Your task to perform on an android device: What are the best selling refrigerators at Home Depot? Image 0: 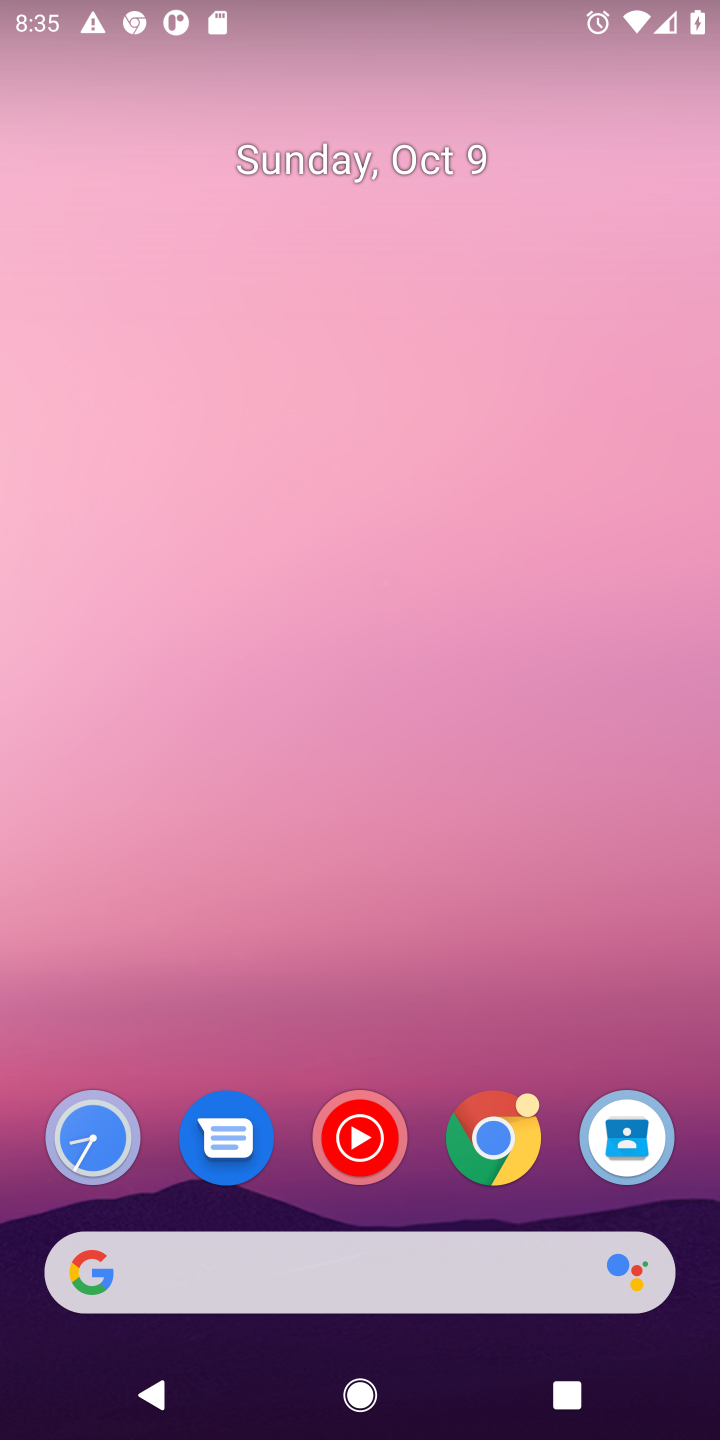
Step 0: drag from (312, 958) to (297, 747)
Your task to perform on an android device: What are the best selling refrigerators at Home Depot? Image 1: 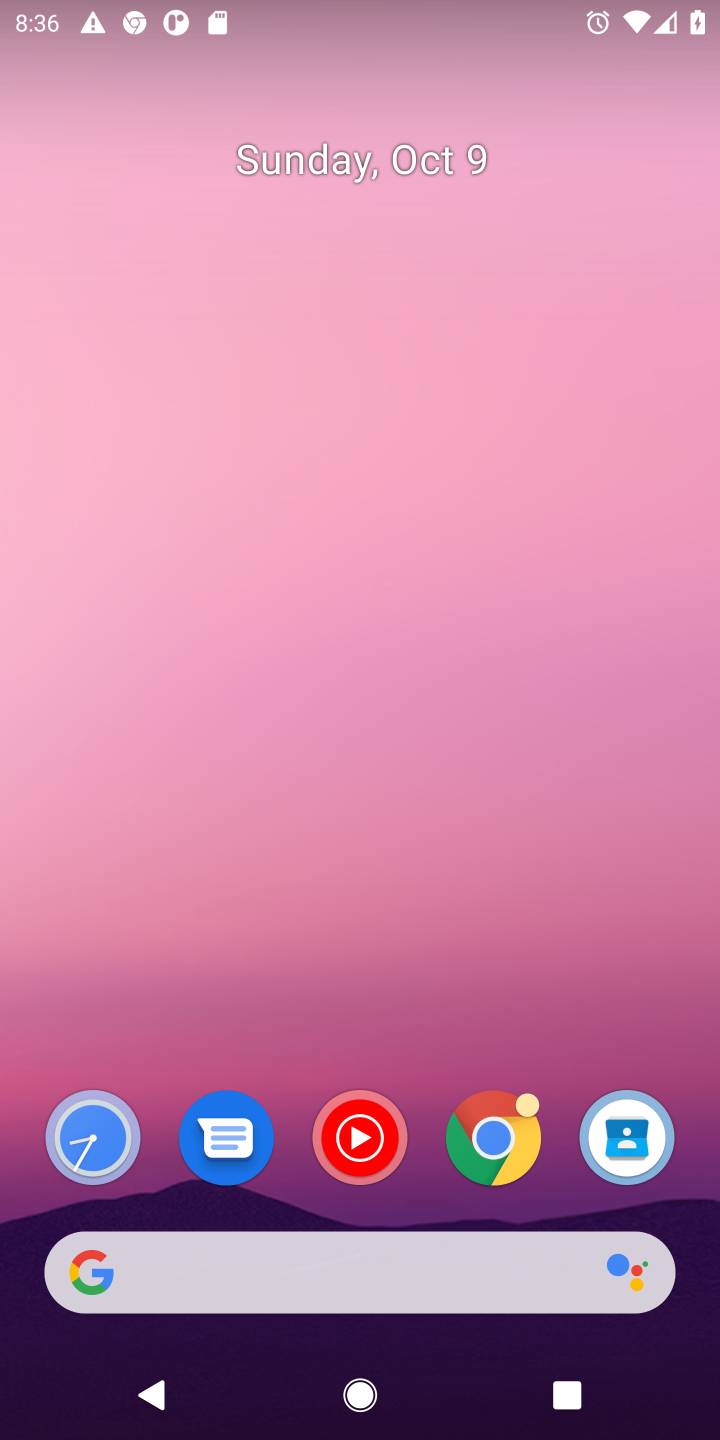
Step 1: drag from (321, 1132) to (321, 265)
Your task to perform on an android device: What are the best selling refrigerators at Home Depot? Image 2: 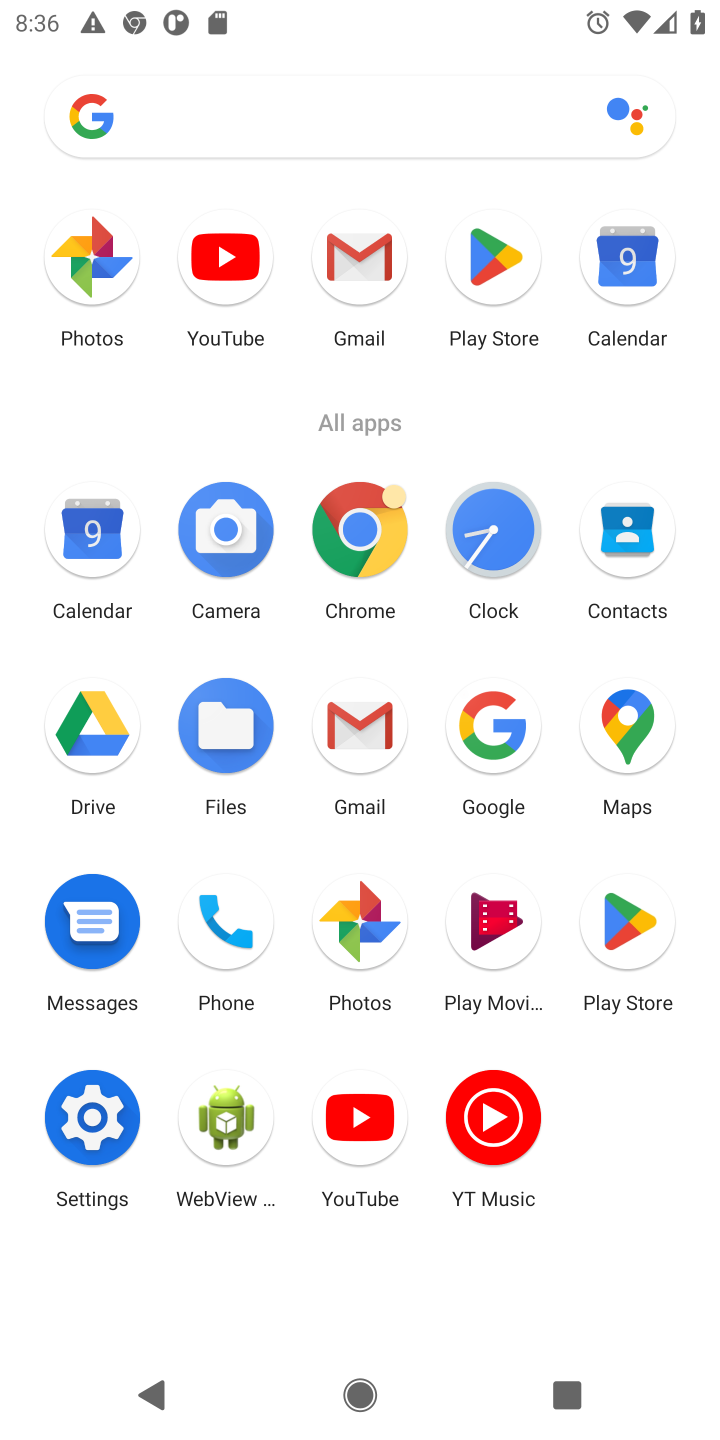
Step 2: click (486, 712)
Your task to perform on an android device: What are the best selling refrigerators at Home Depot? Image 3: 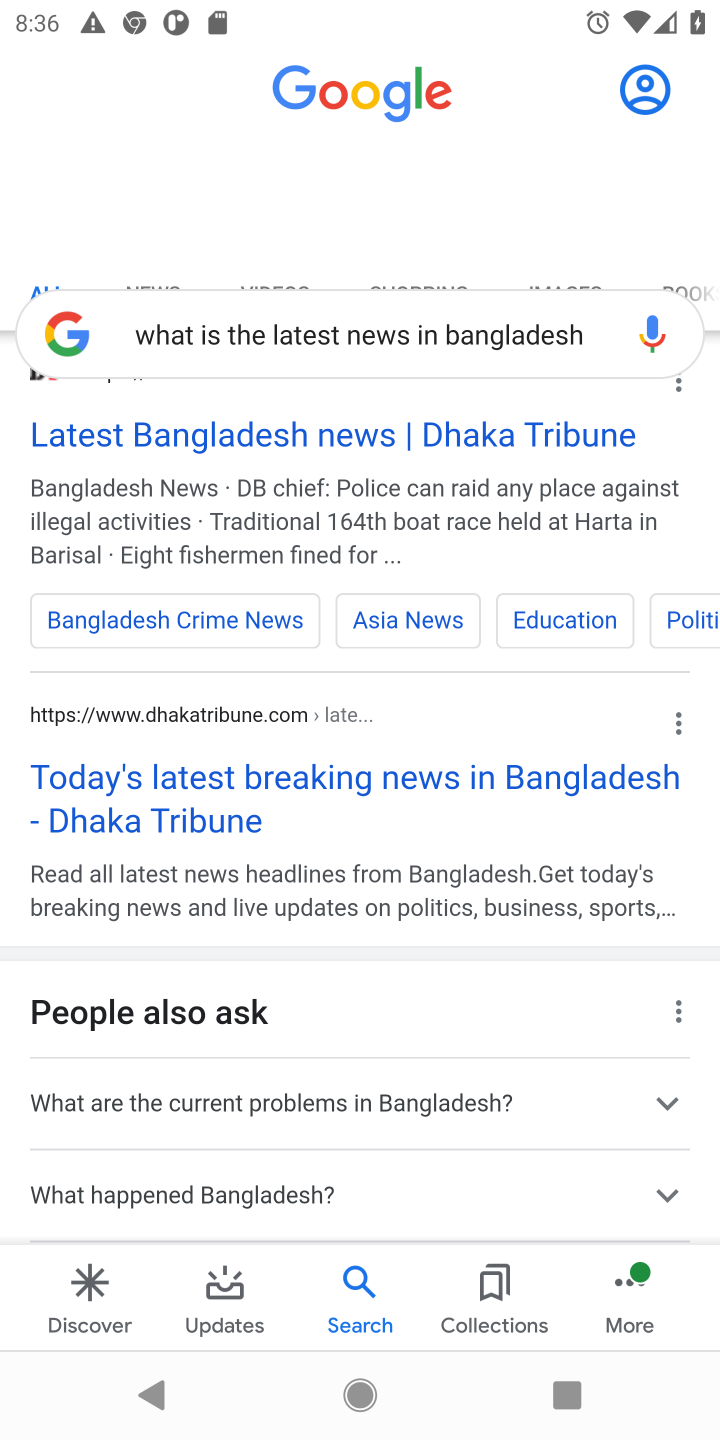
Step 3: click (352, 305)
Your task to perform on an android device: What are the best selling refrigerators at Home Depot? Image 4: 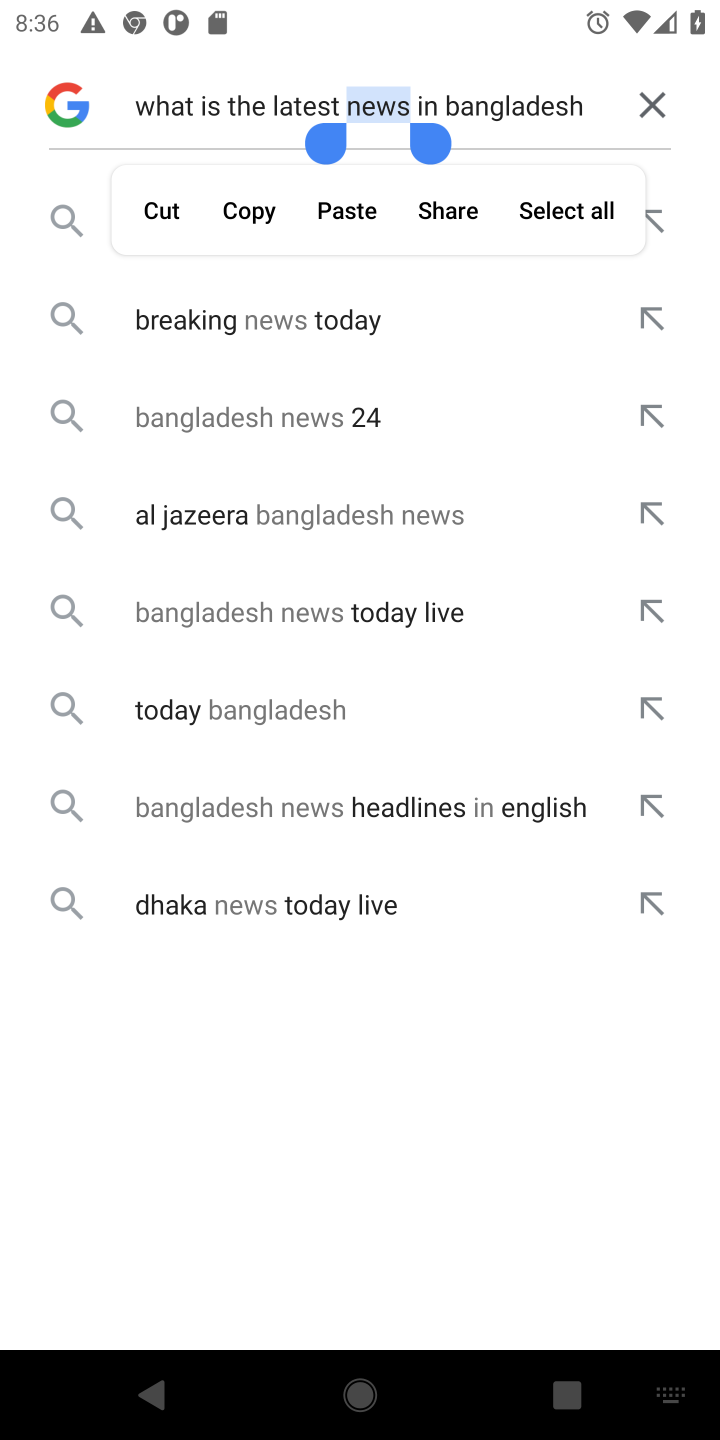
Step 4: click (651, 107)
Your task to perform on an android device: What are the best selling refrigerators at Home Depot? Image 5: 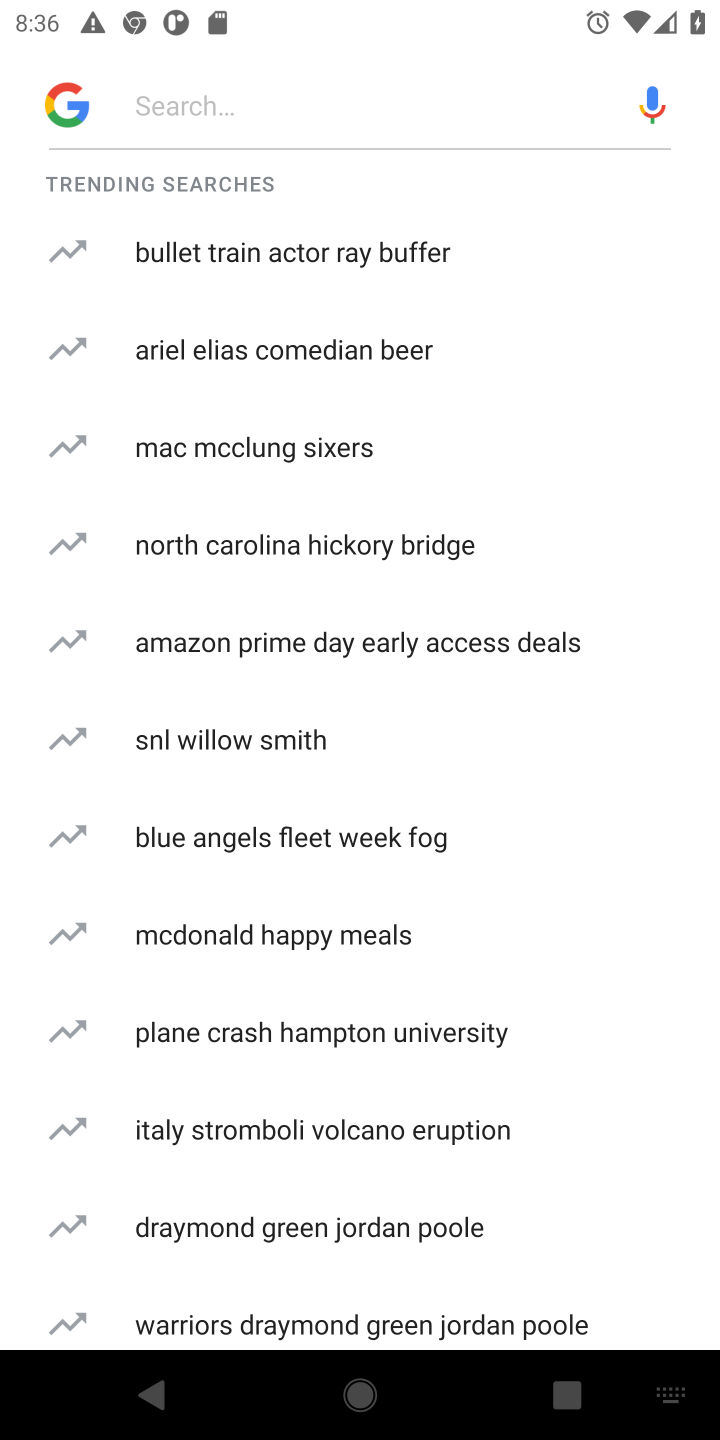
Step 5: click (305, 59)
Your task to perform on an android device: What are the best selling refrigerators at Home Depot? Image 6: 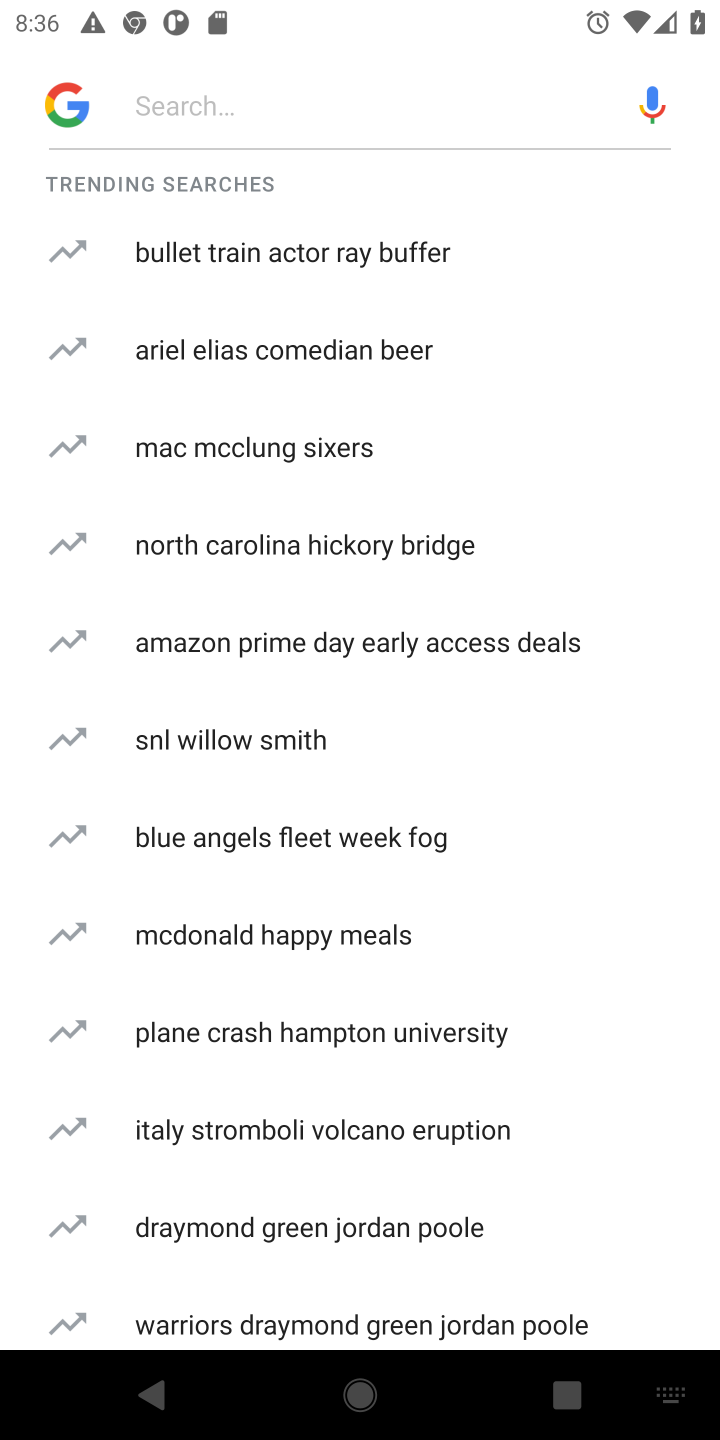
Step 6: type "What are the best selling refrigerators at Home Depot? "
Your task to perform on an android device: What are the best selling refrigerators at Home Depot? Image 7: 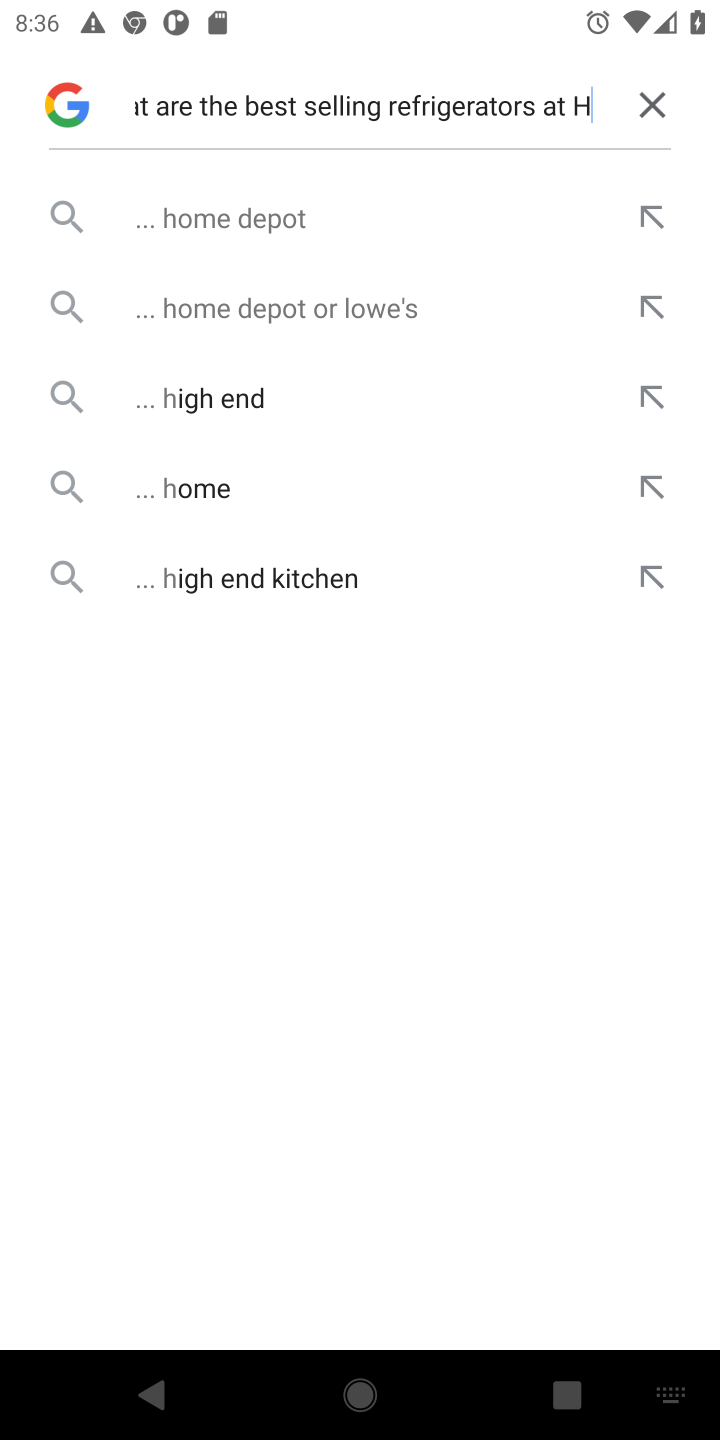
Step 7: click (324, 220)
Your task to perform on an android device: What are the best selling refrigerators at Home Depot? Image 8: 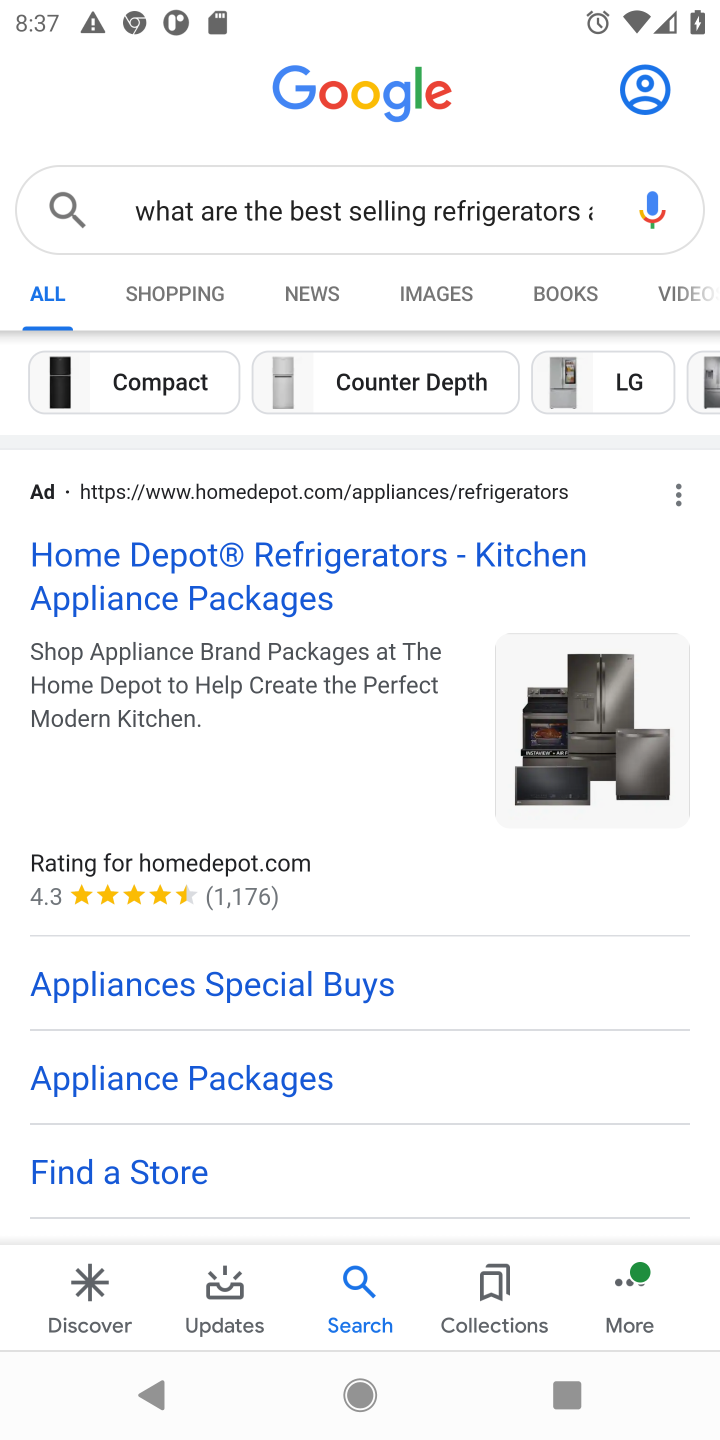
Step 8: click (177, 580)
Your task to perform on an android device: What are the best selling refrigerators at Home Depot? Image 9: 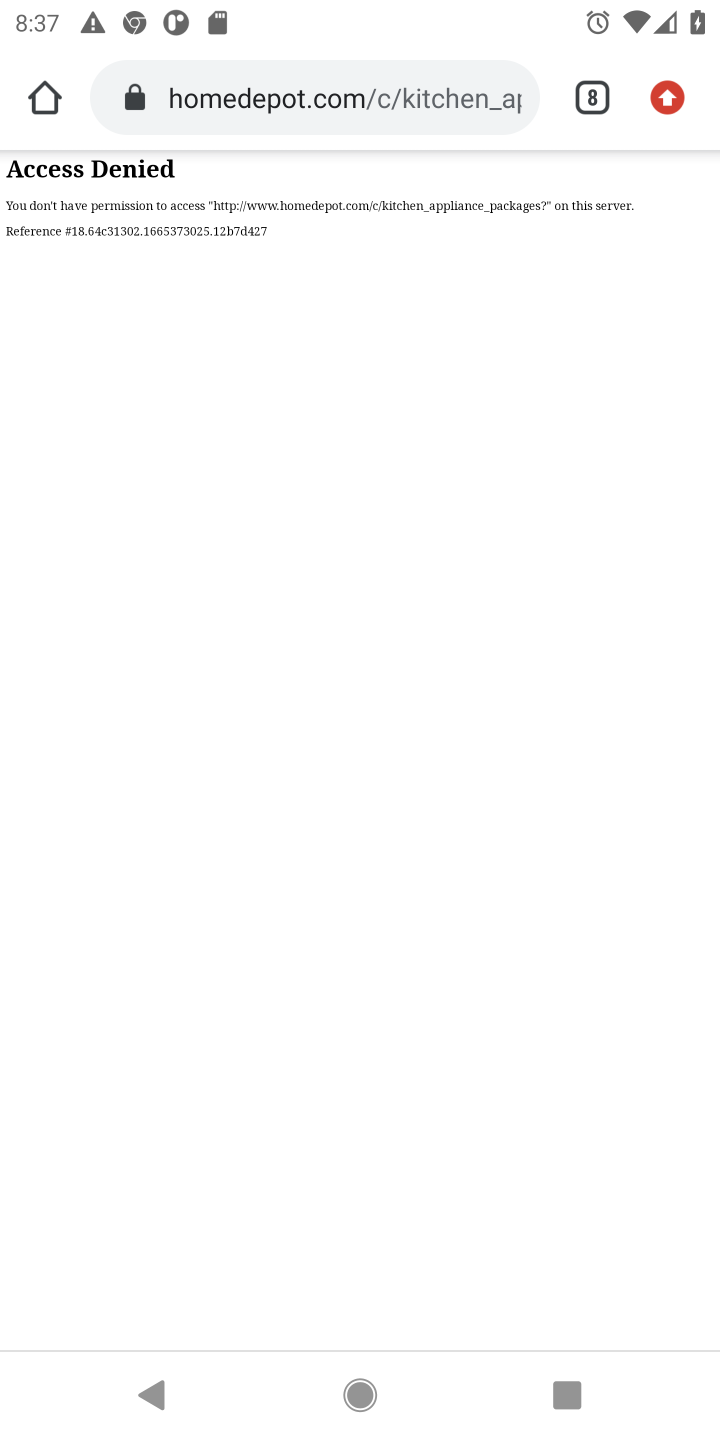
Step 9: press back button
Your task to perform on an android device: What are the best selling refrigerators at Home Depot? Image 10: 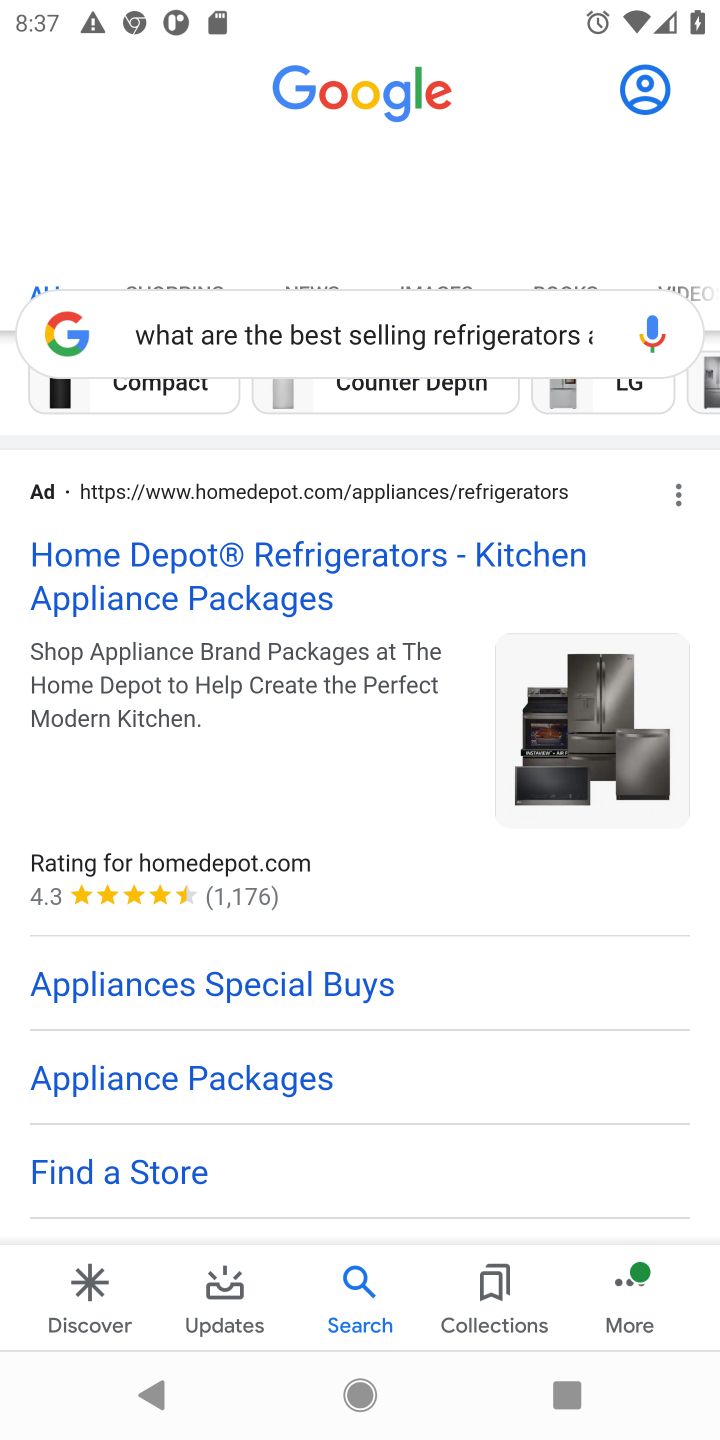
Step 10: click (308, 1190)
Your task to perform on an android device: What are the best selling refrigerators at Home Depot? Image 11: 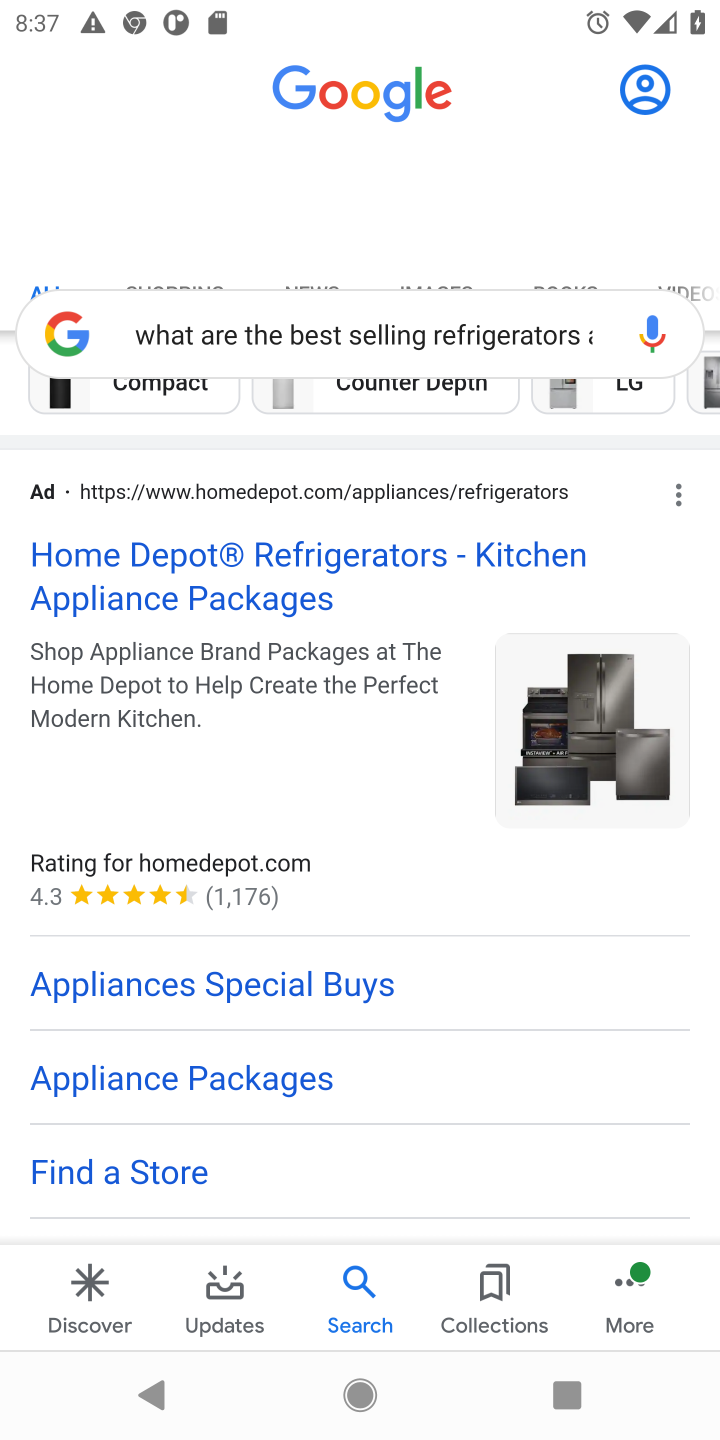
Step 11: drag from (333, 1044) to (441, 549)
Your task to perform on an android device: What are the best selling refrigerators at Home Depot? Image 12: 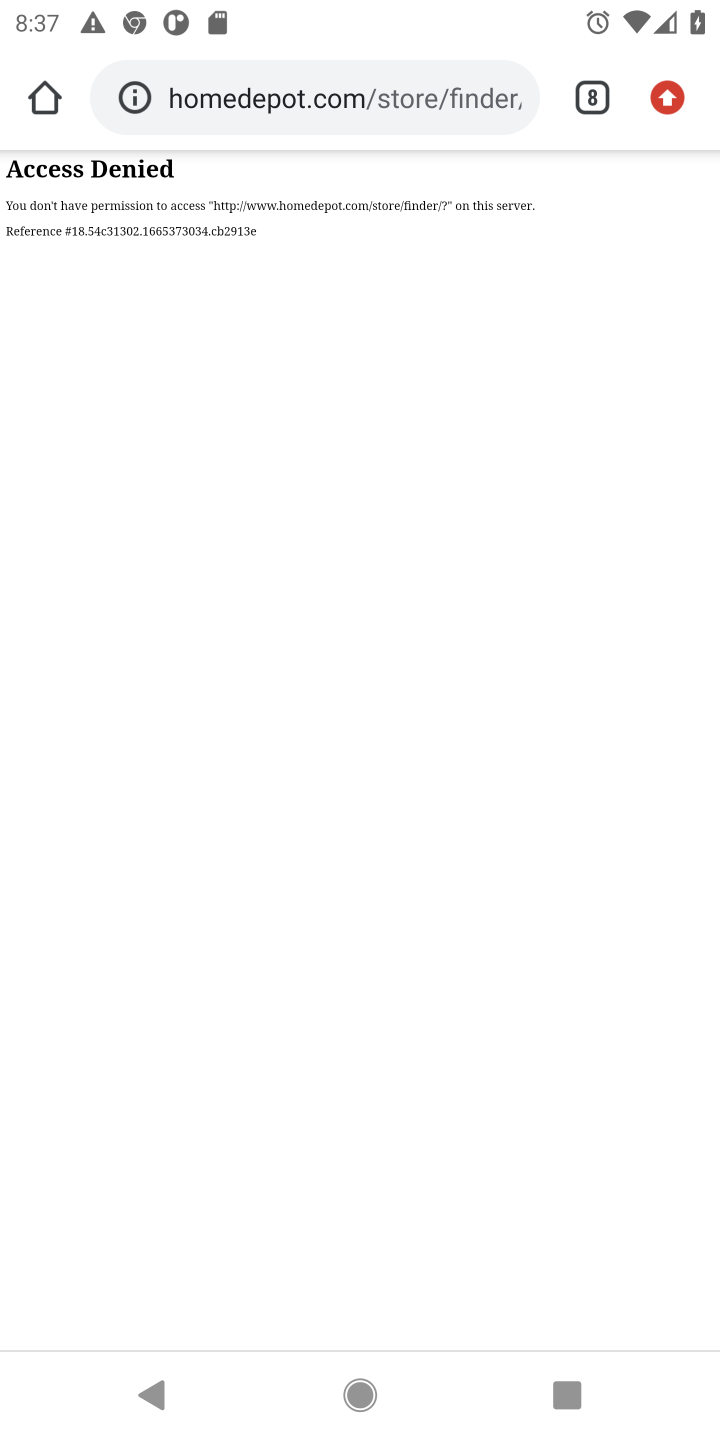
Step 12: drag from (374, 887) to (432, 429)
Your task to perform on an android device: What are the best selling refrigerators at Home Depot? Image 13: 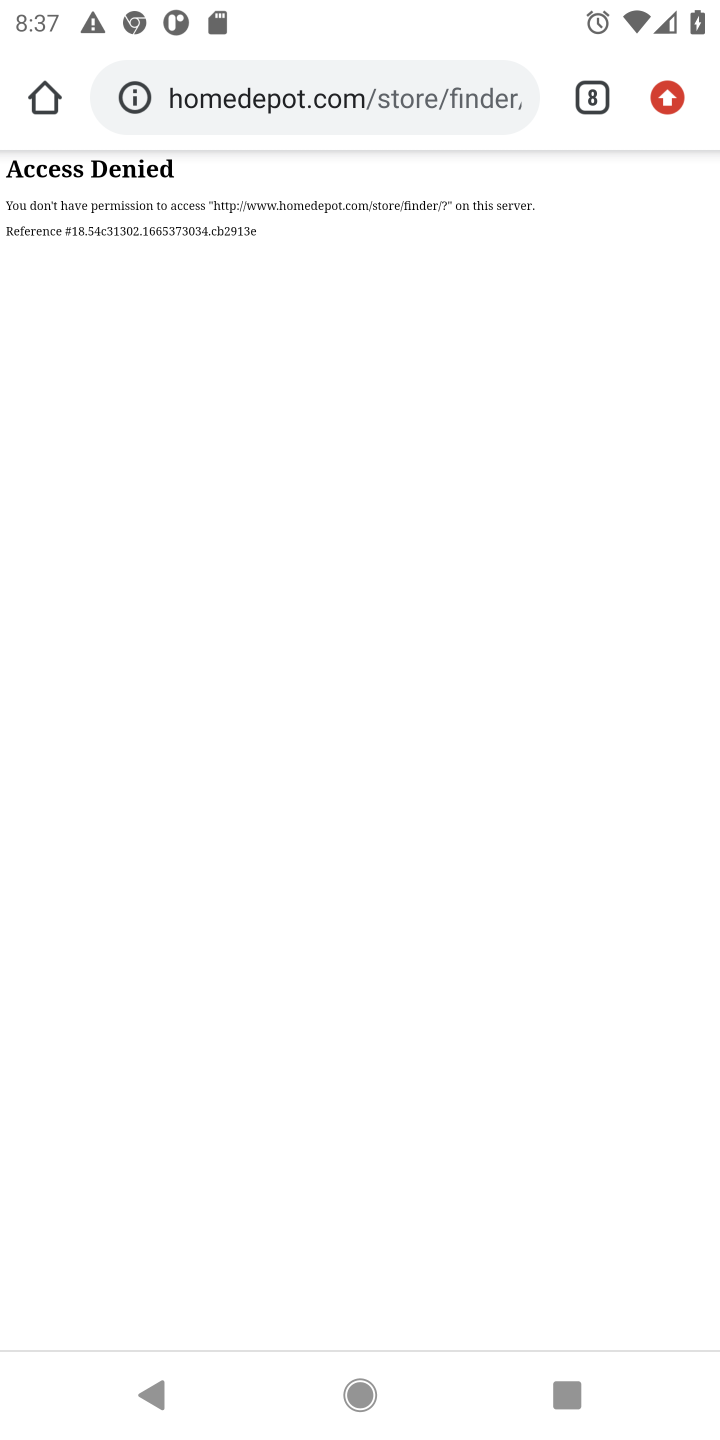
Step 13: press back button
Your task to perform on an android device: What are the best selling refrigerators at Home Depot? Image 14: 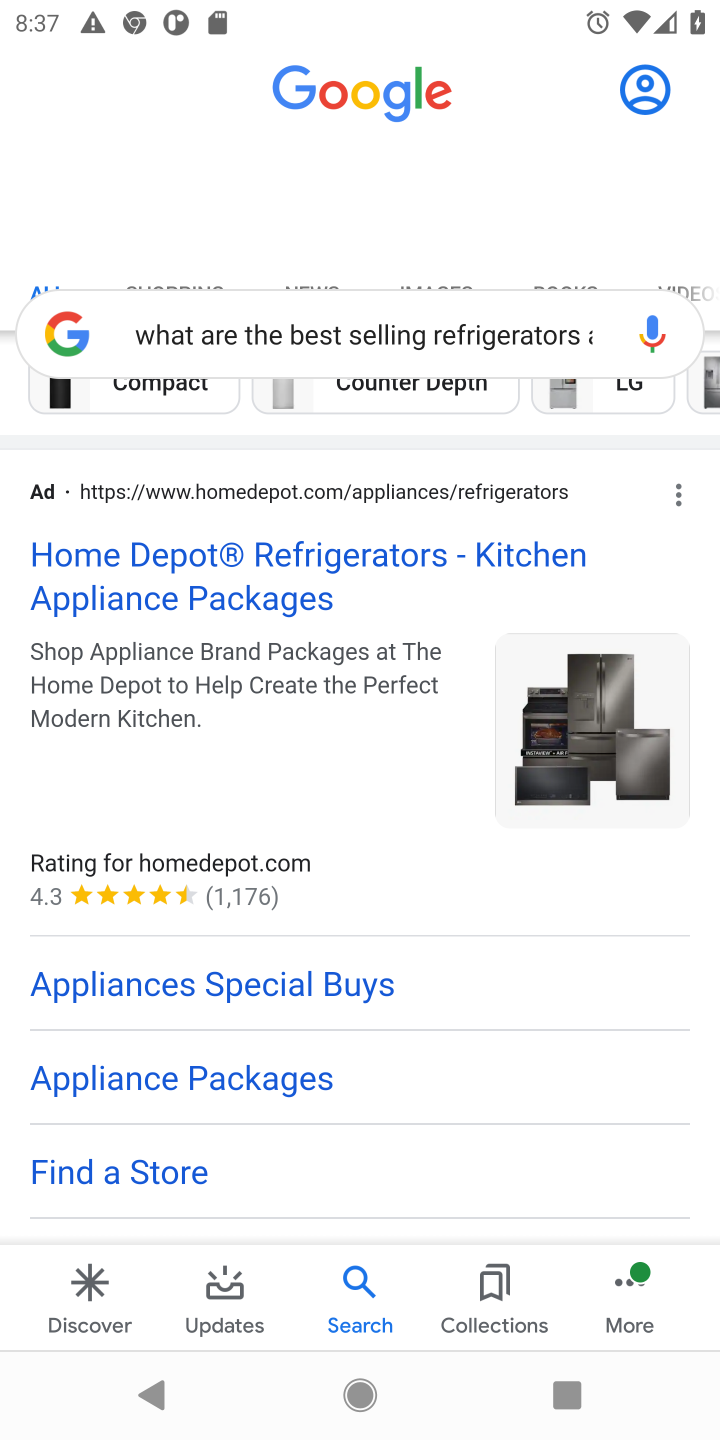
Step 14: drag from (423, 1114) to (458, 734)
Your task to perform on an android device: What are the best selling refrigerators at Home Depot? Image 15: 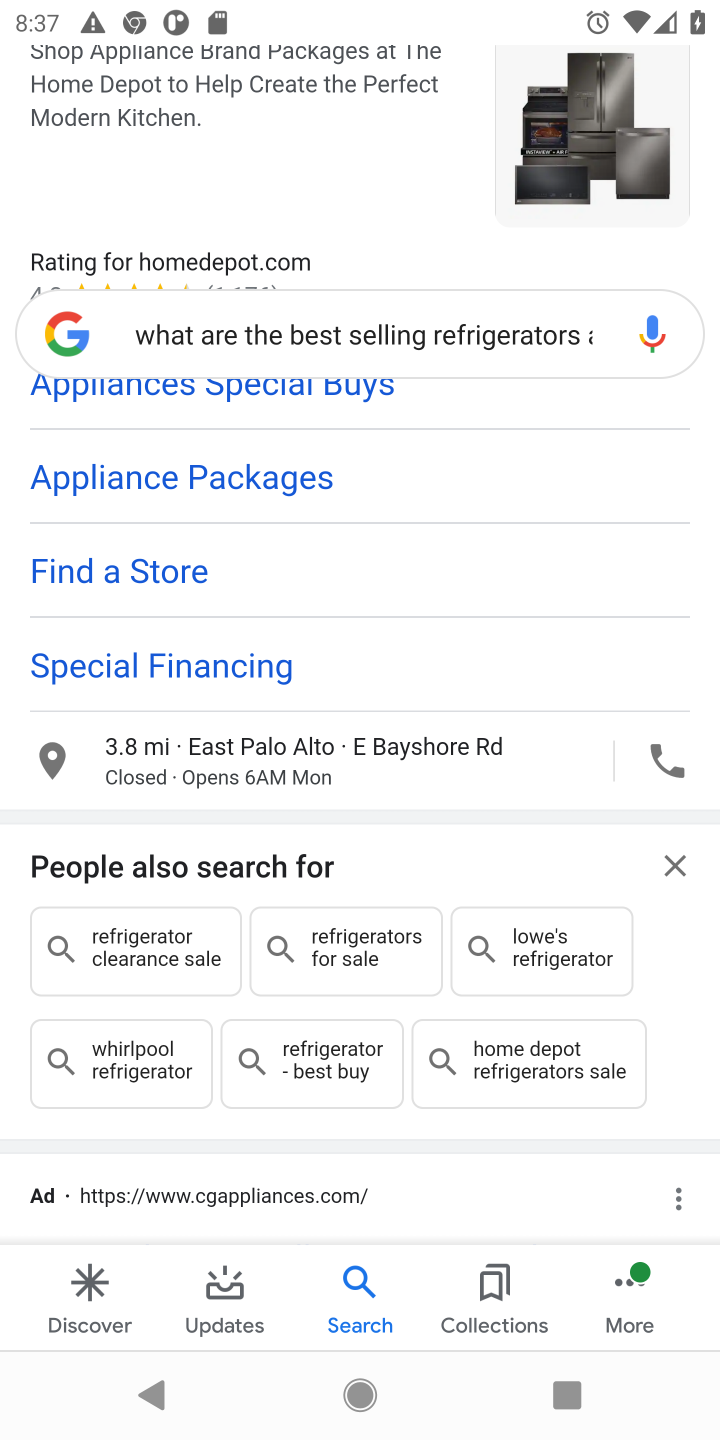
Step 15: drag from (435, 854) to (445, 787)
Your task to perform on an android device: What are the best selling refrigerators at Home Depot? Image 16: 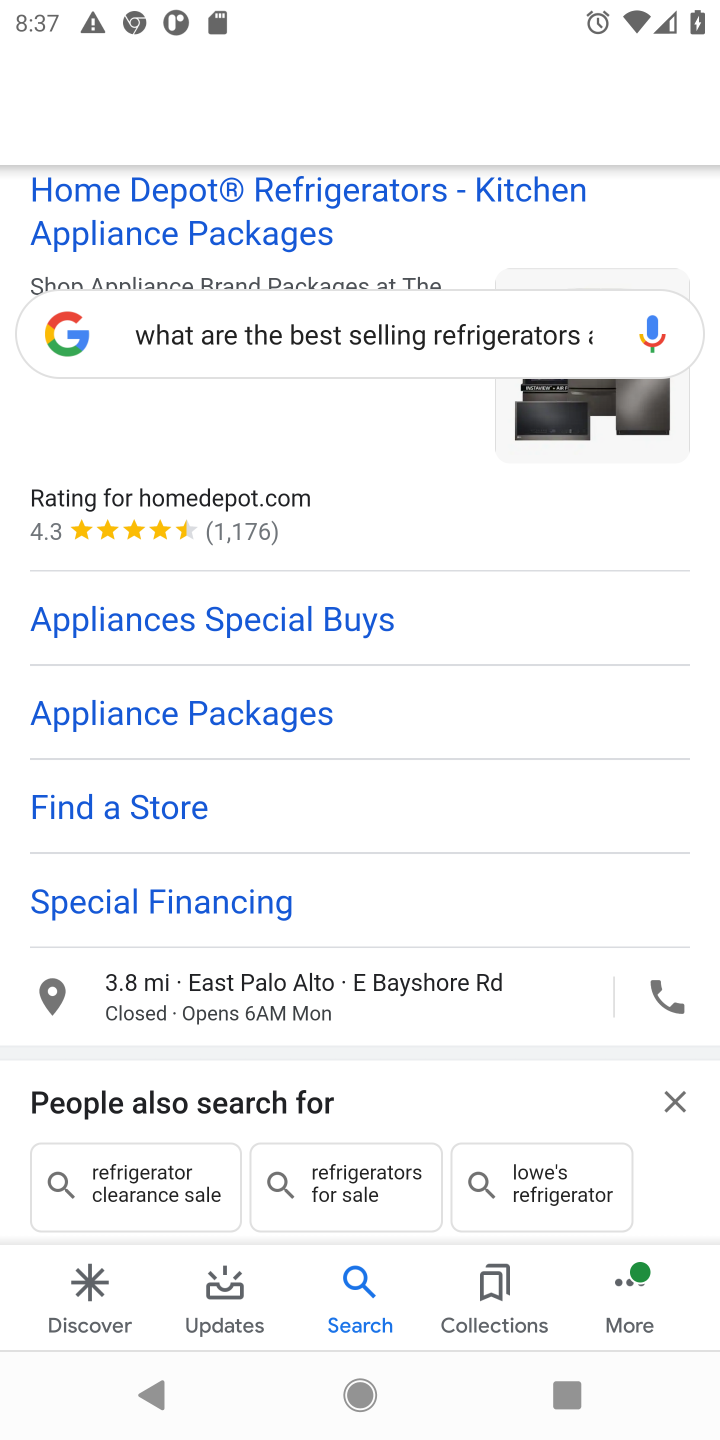
Step 16: drag from (393, 947) to (408, 754)
Your task to perform on an android device: What are the best selling refrigerators at Home Depot? Image 17: 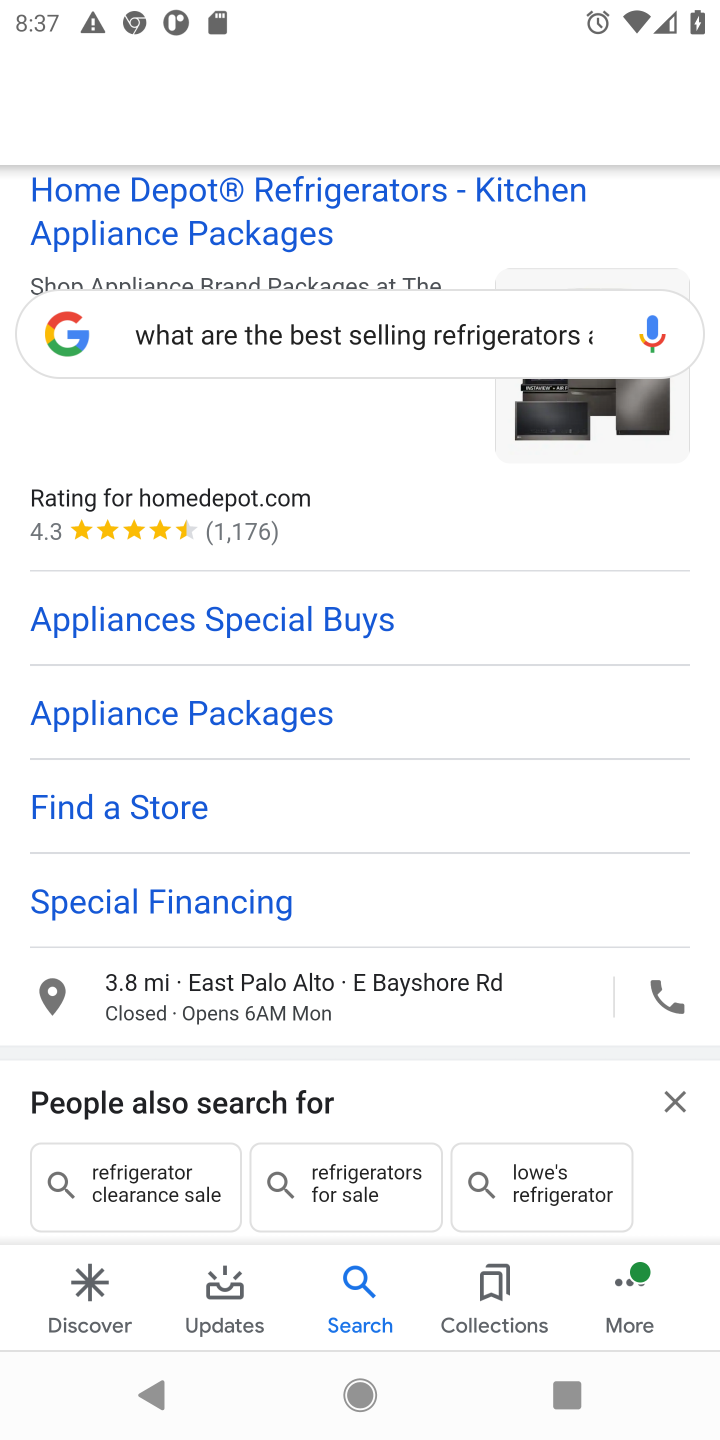
Step 17: drag from (269, 1051) to (326, 608)
Your task to perform on an android device: What are the best selling refrigerators at Home Depot? Image 18: 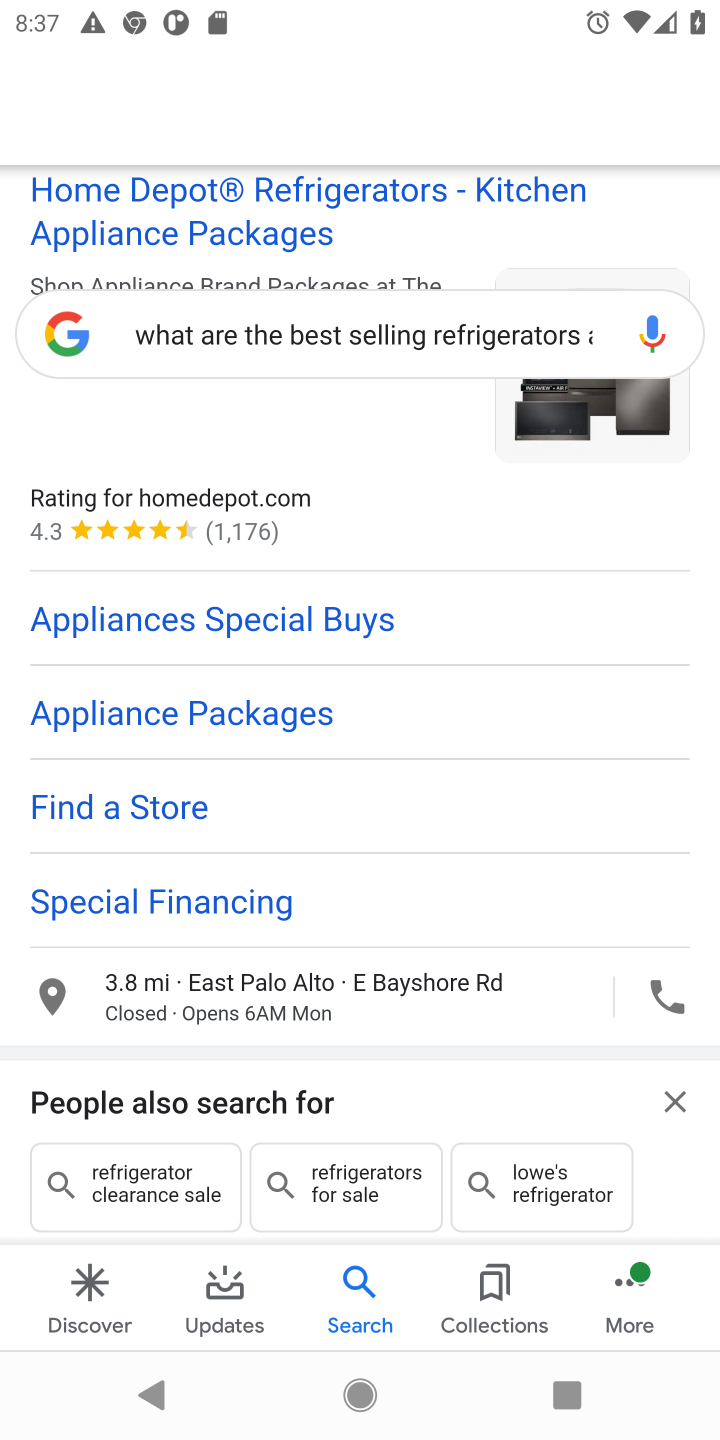
Step 18: drag from (200, 1065) to (300, 631)
Your task to perform on an android device: What are the best selling refrigerators at Home Depot? Image 19: 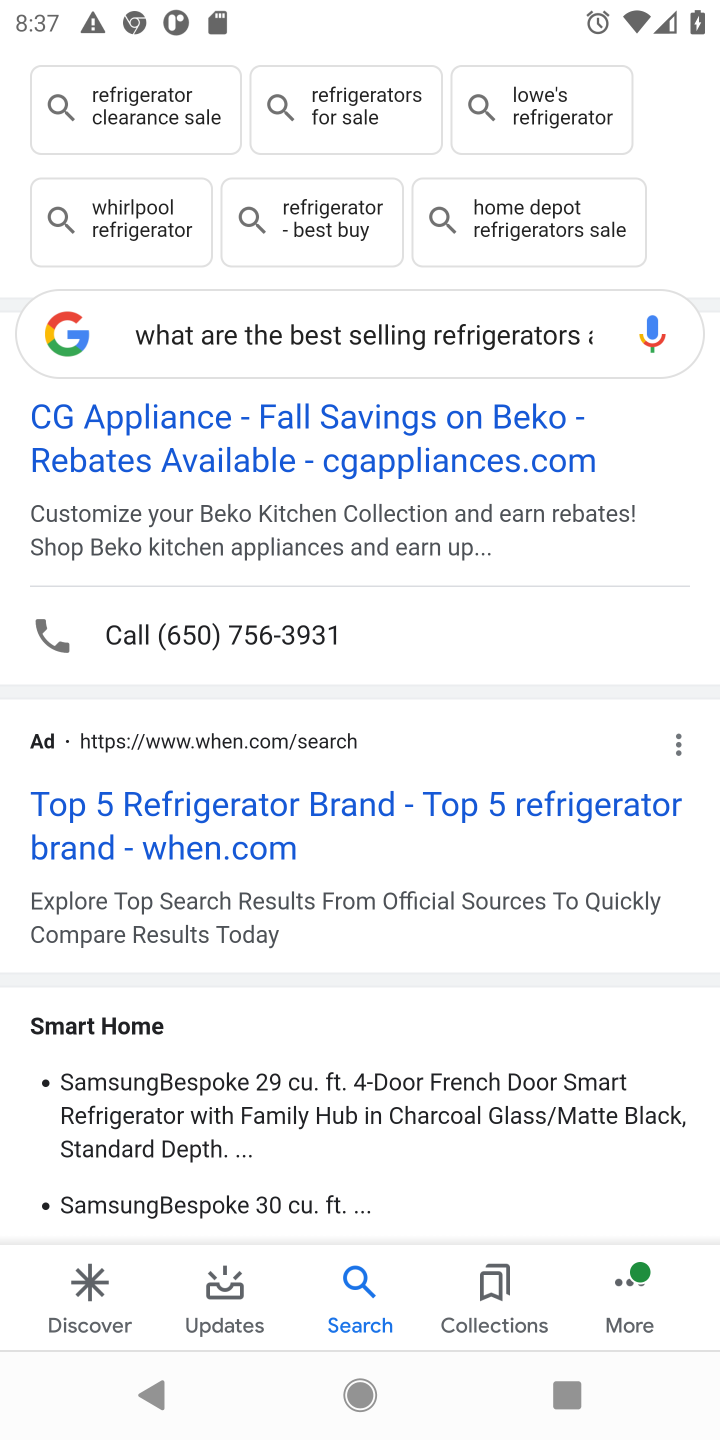
Step 19: drag from (261, 825) to (271, 658)
Your task to perform on an android device: What are the best selling refrigerators at Home Depot? Image 20: 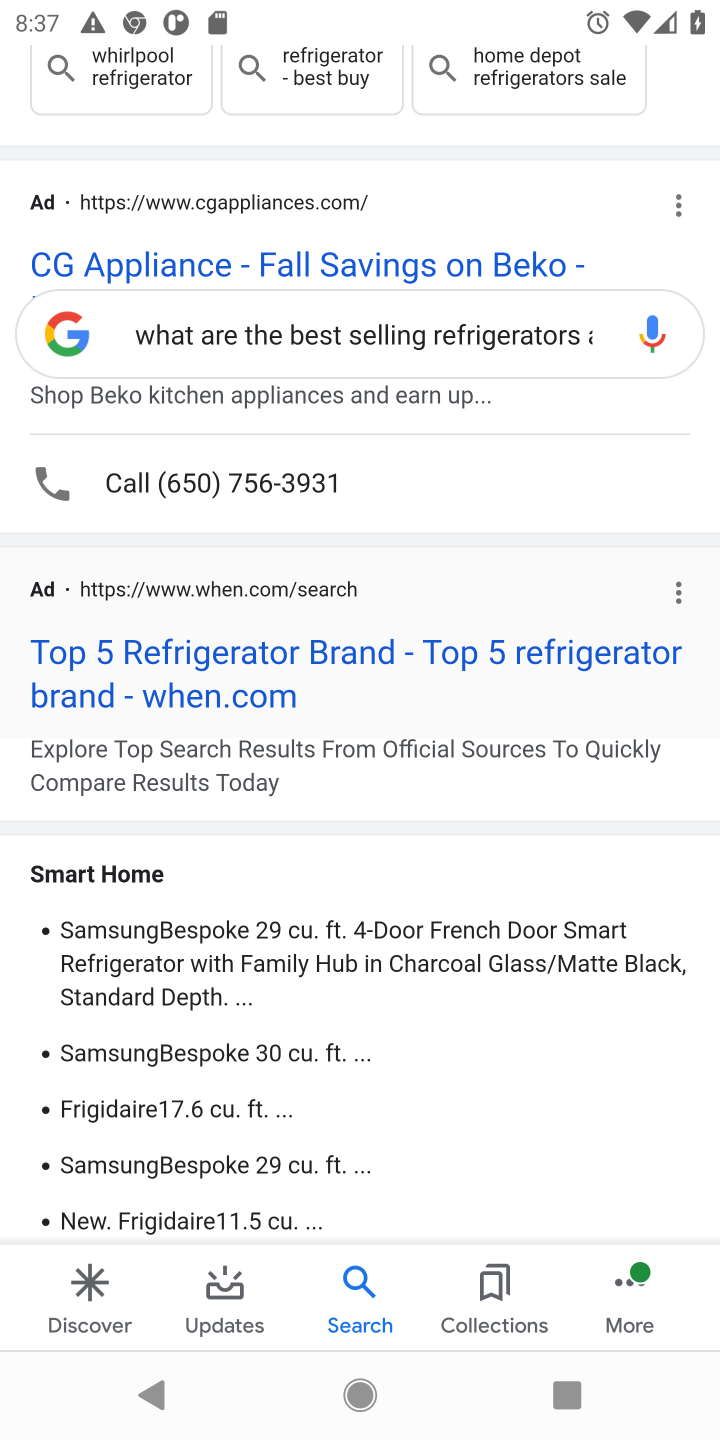
Step 20: click (231, 809)
Your task to perform on an android device: What are the best selling refrigerators at Home Depot? Image 21: 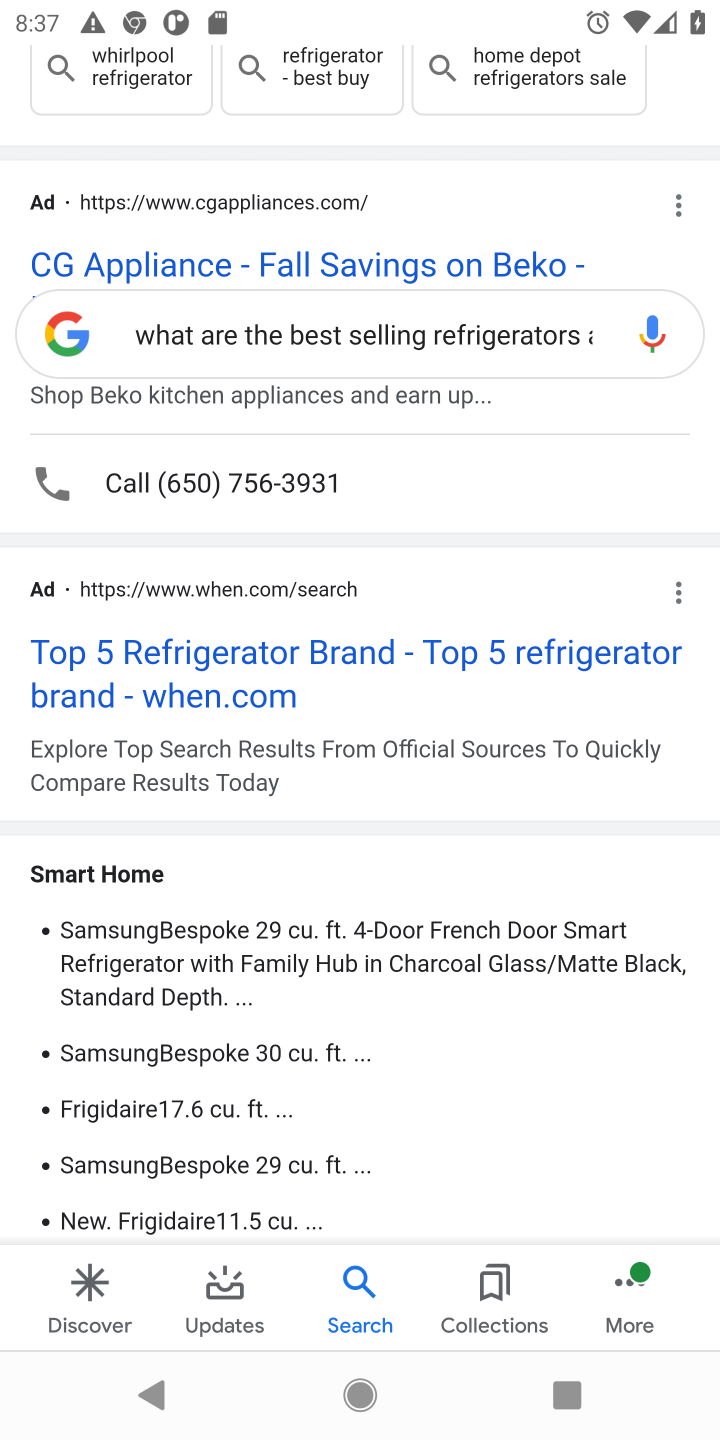
Step 21: click (228, 706)
Your task to perform on an android device: What are the best selling refrigerators at Home Depot? Image 22: 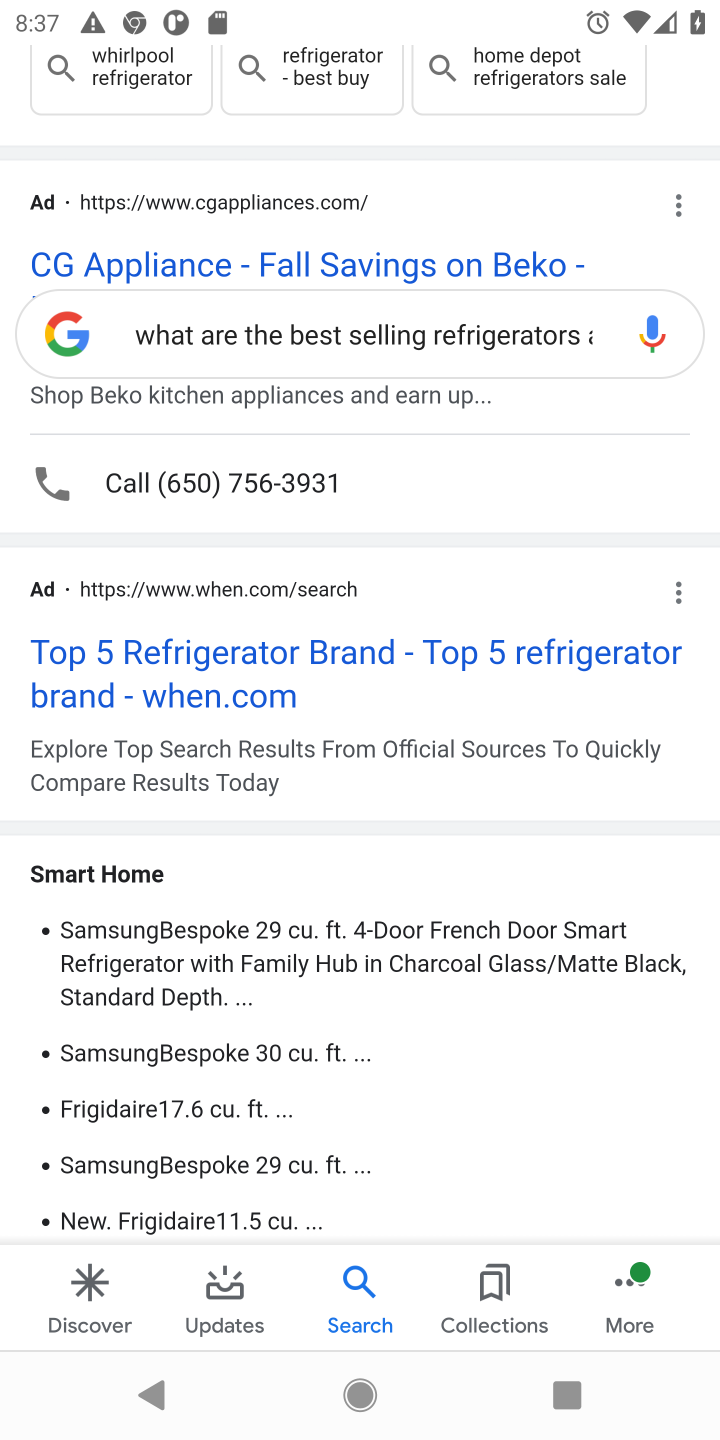
Step 22: click (199, 670)
Your task to perform on an android device: What are the best selling refrigerators at Home Depot? Image 23: 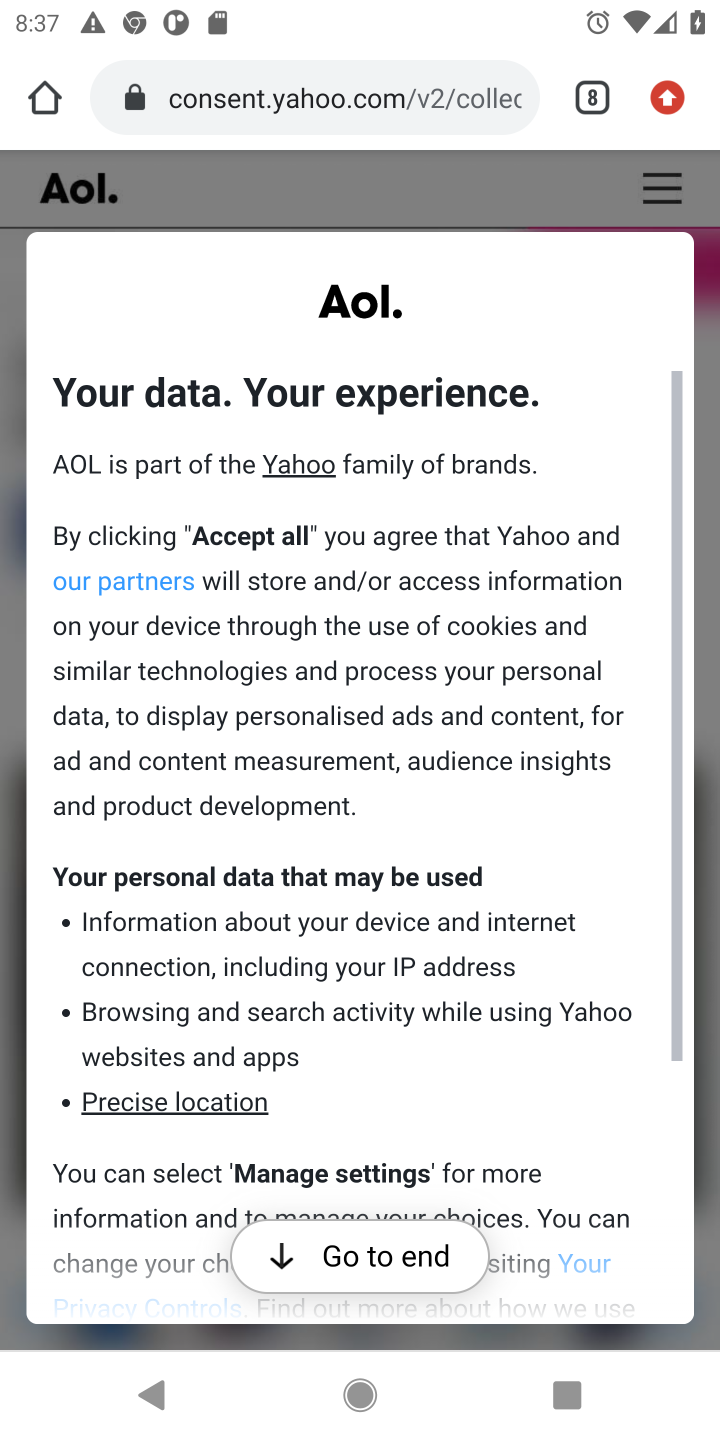
Step 23: click (395, 1238)
Your task to perform on an android device: What are the best selling refrigerators at Home Depot? Image 24: 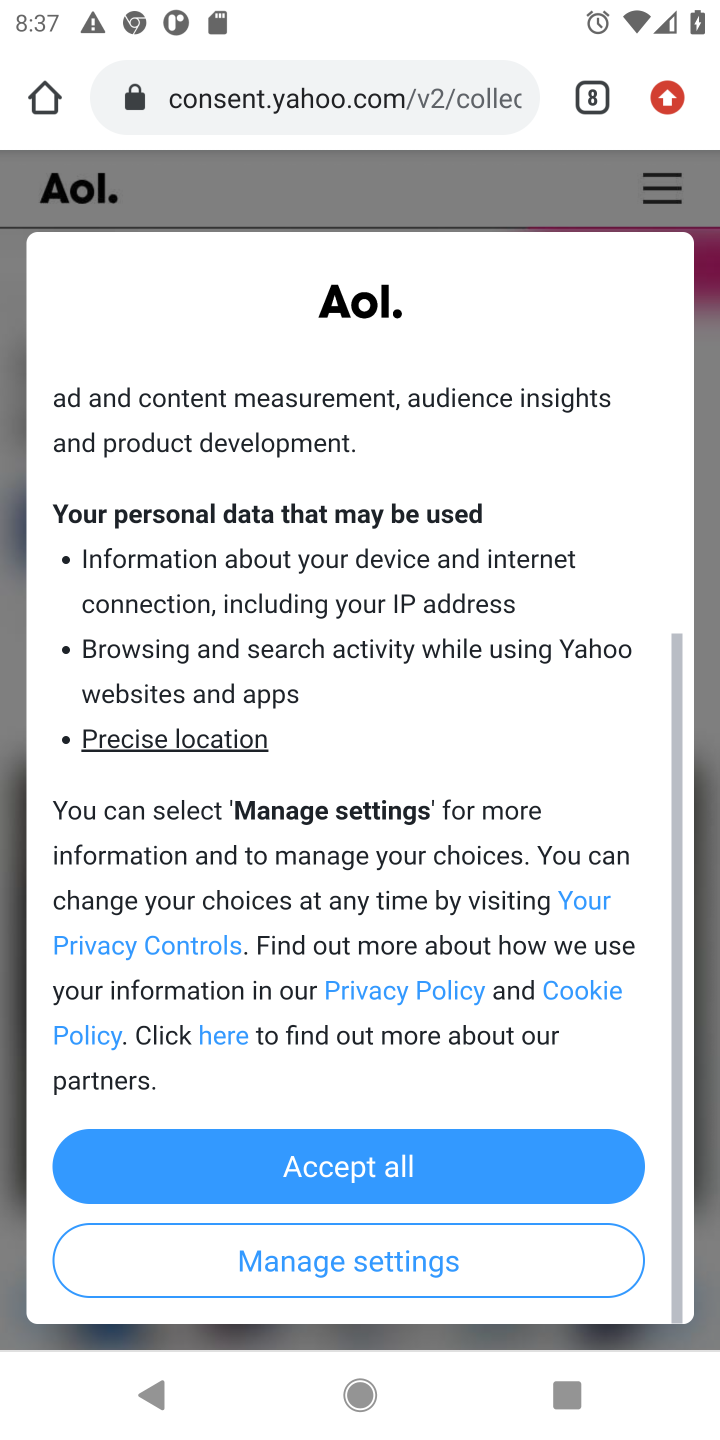
Step 24: click (493, 1167)
Your task to perform on an android device: What are the best selling refrigerators at Home Depot? Image 25: 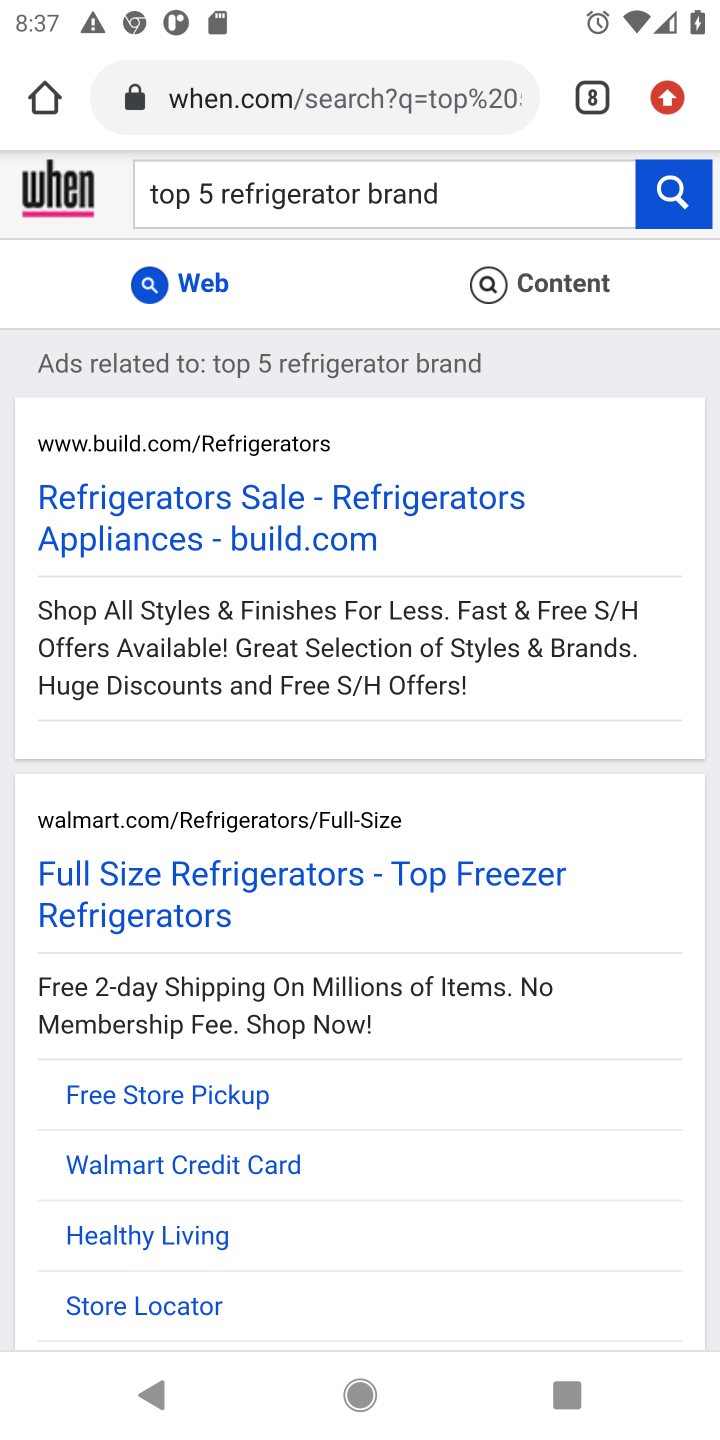
Step 25: press back button
Your task to perform on an android device: What are the best selling refrigerators at Home Depot? Image 26: 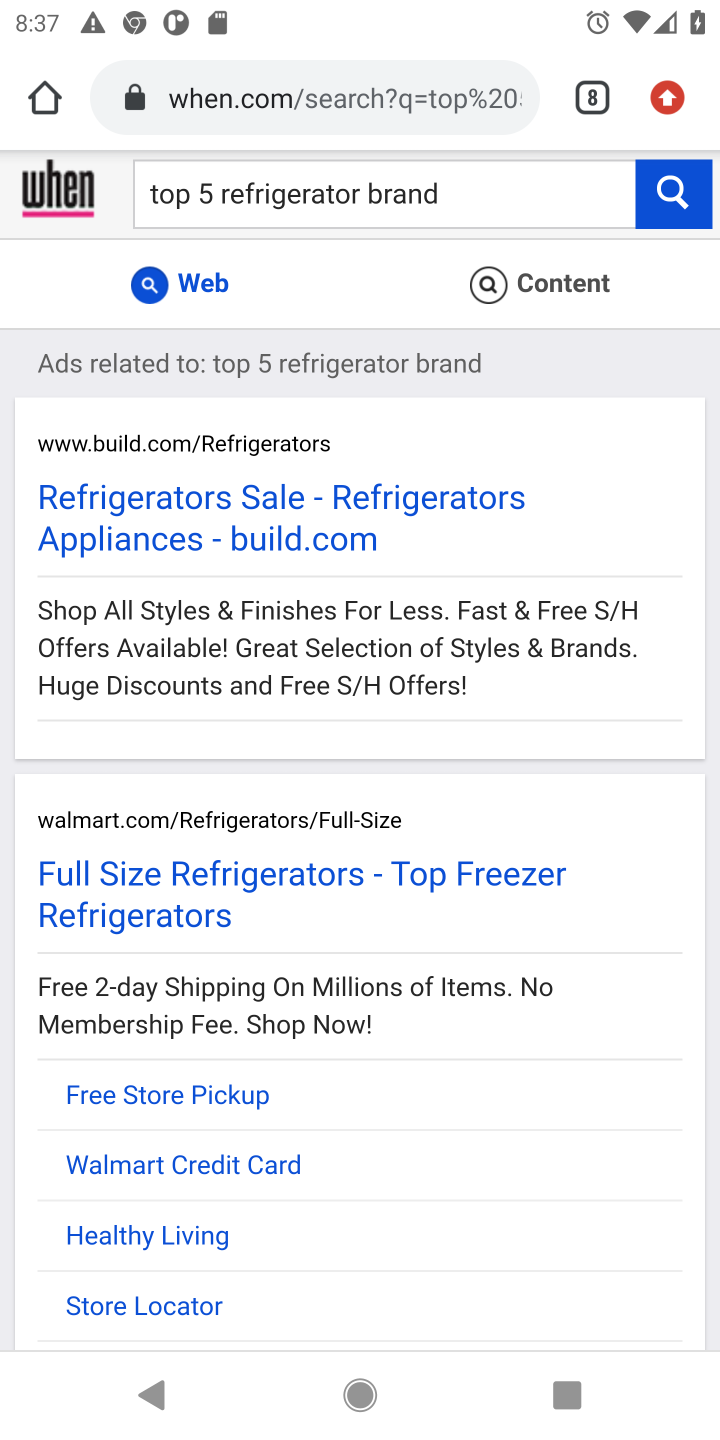
Step 26: press back button
Your task to perform on an android device: What are the best selling refrigerators at Home Depot? Image 27: 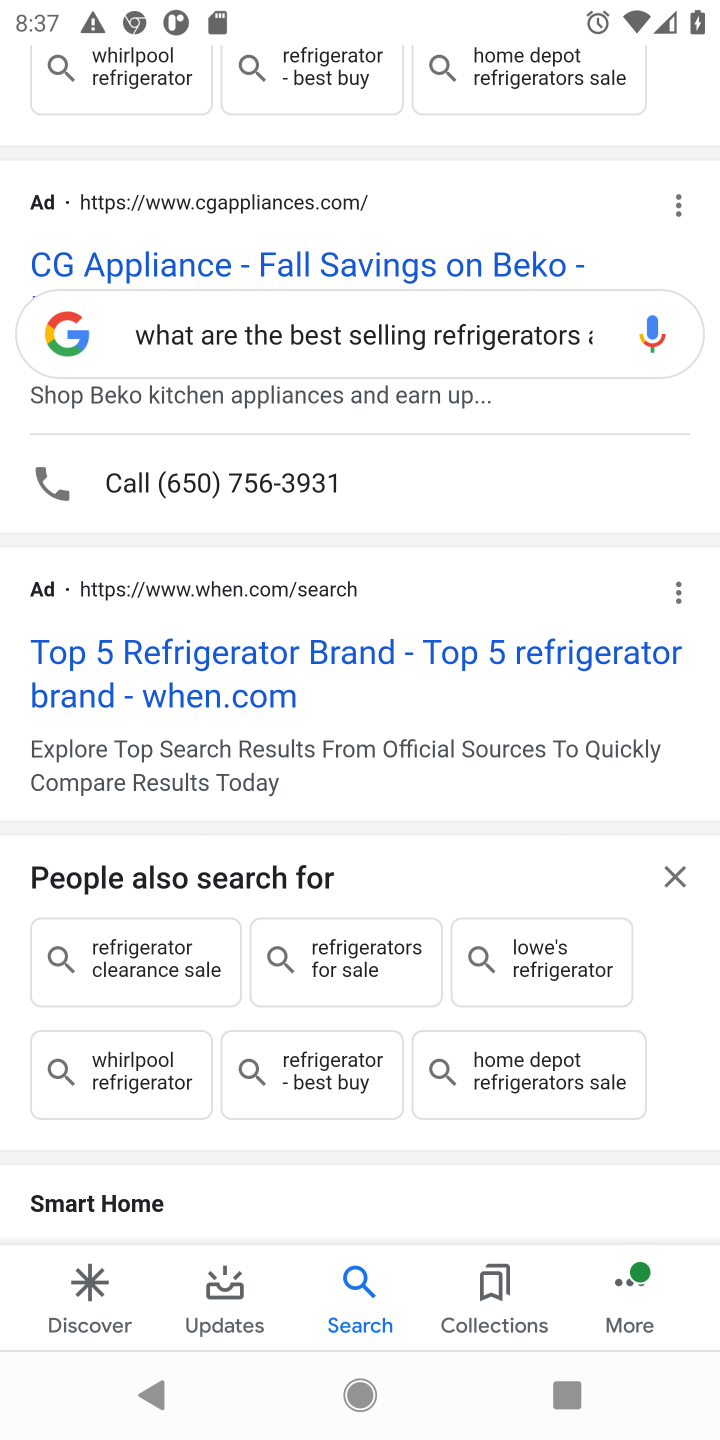
Step 27: drag from (327, 282) to (190, 1200)
Your task to perform on an android device: What are the best selling refrigerators at Home Depot? Image 28: 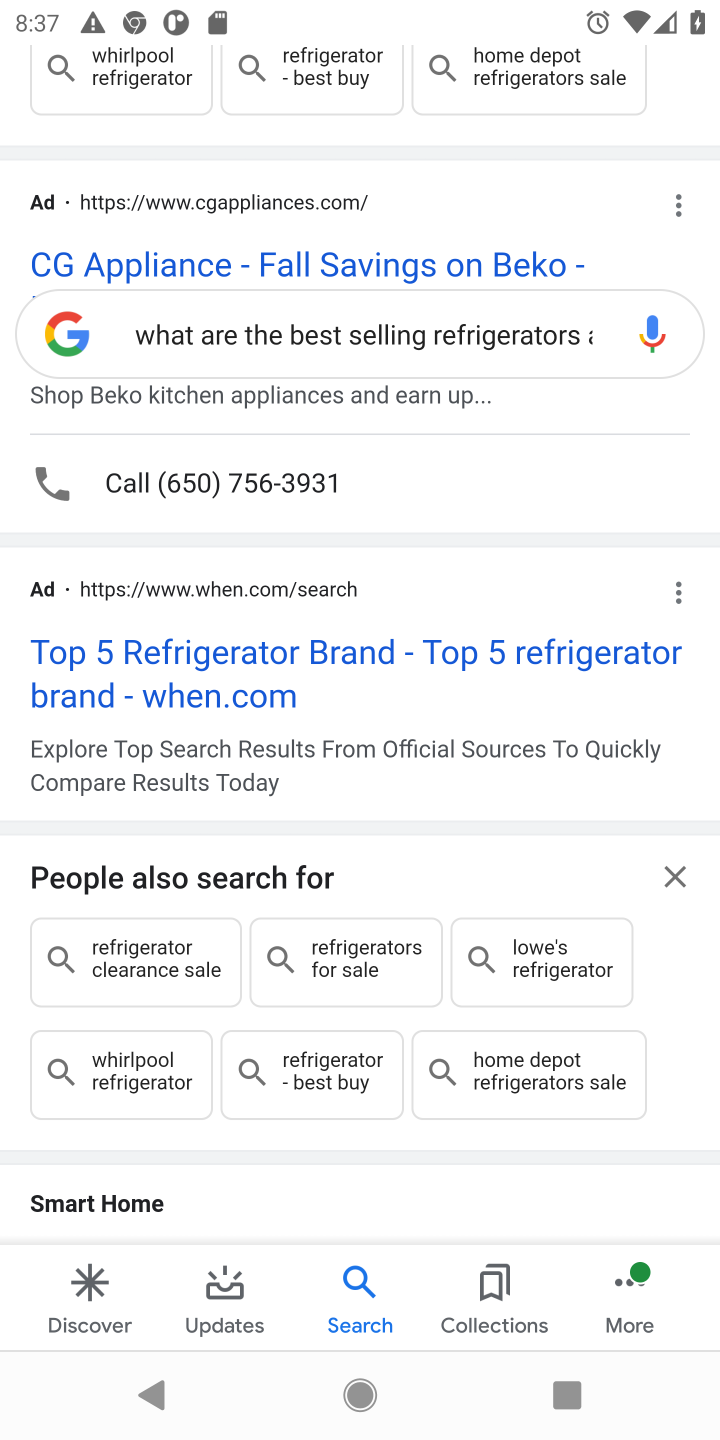
Step 28: drag from (267, 885) to (269, 1229)
Your task to perform on an android device: What are the best selling refrigerators at Home Depot? Image 29: 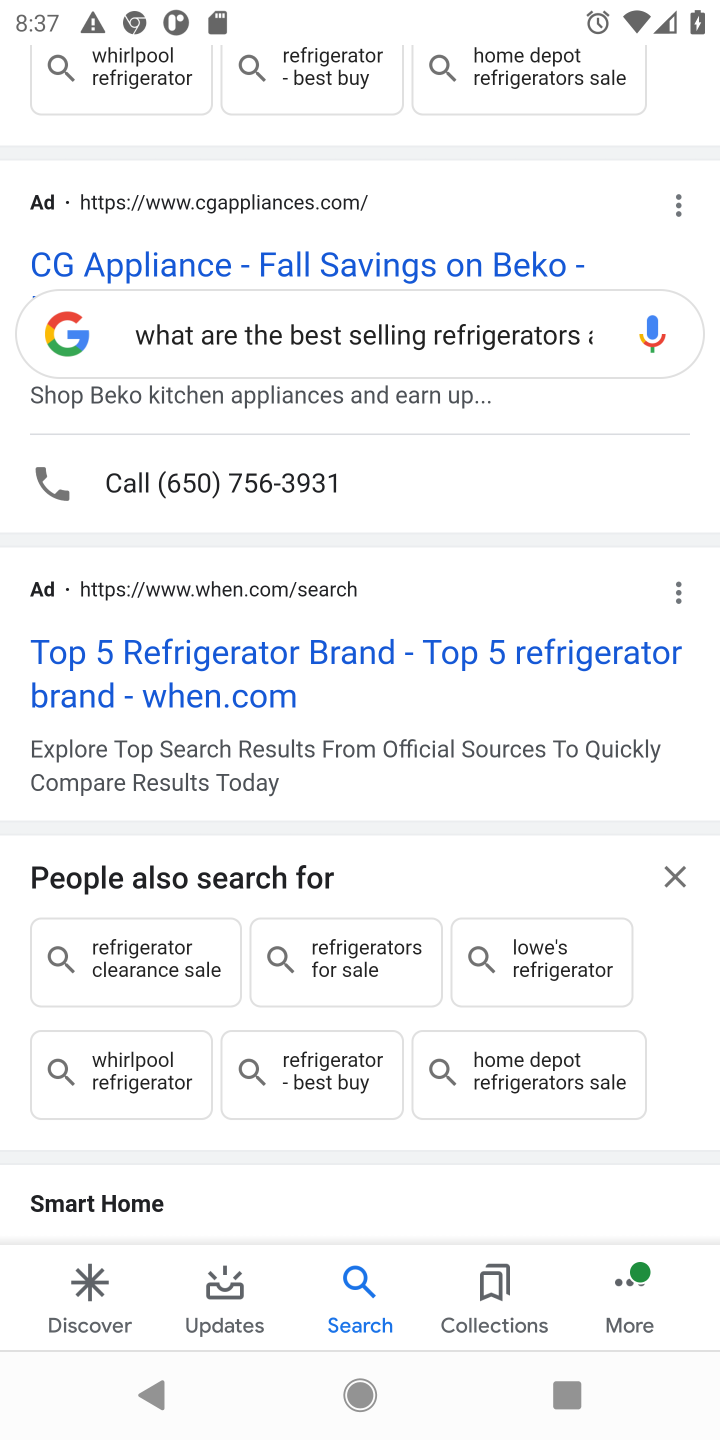
Step 29: drag from (373, 1135) to (300, 946)
Your task to perform on an android device: What are the best selling refrigerators at Home Depot? Image 30: 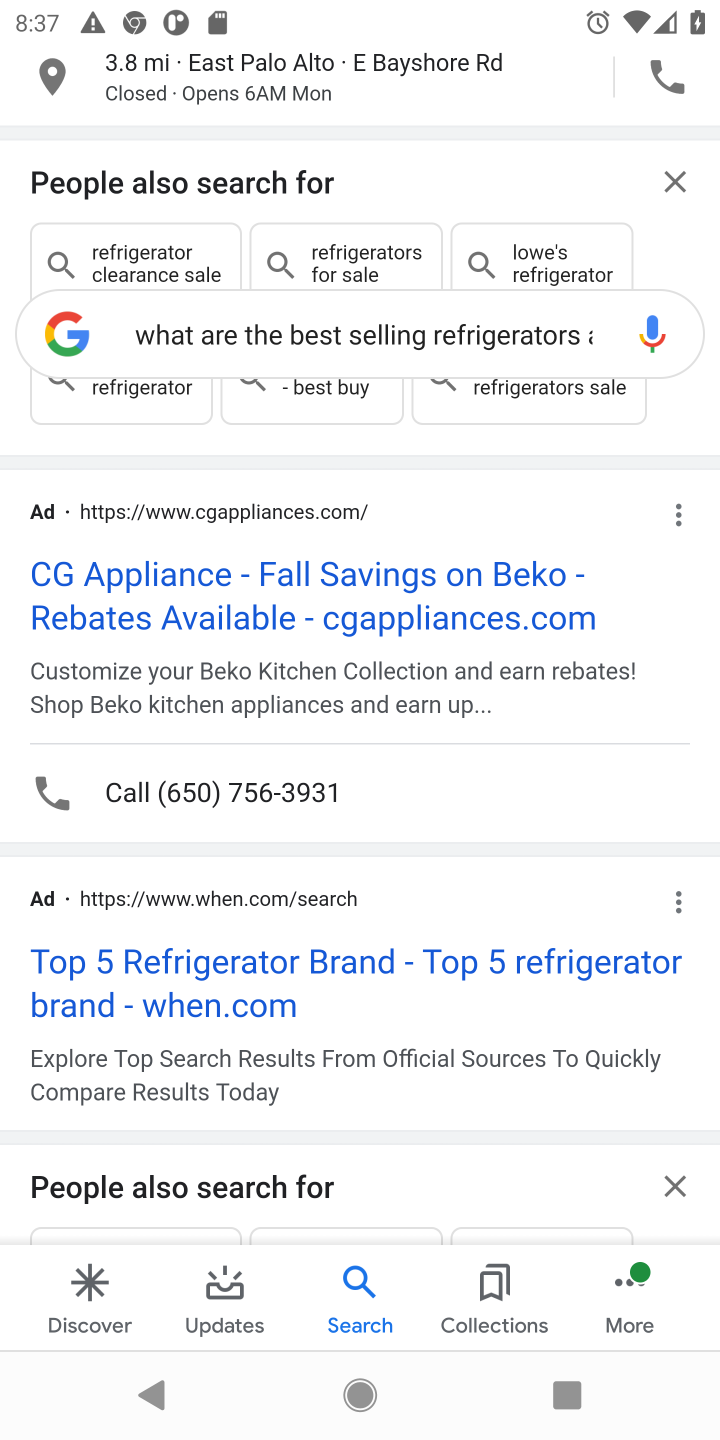
Step 30: drag from (391, 570) to (233, 1066)
Your task to perform on an android device: What are the best selling refrigerators at Home Depot? Image 31: 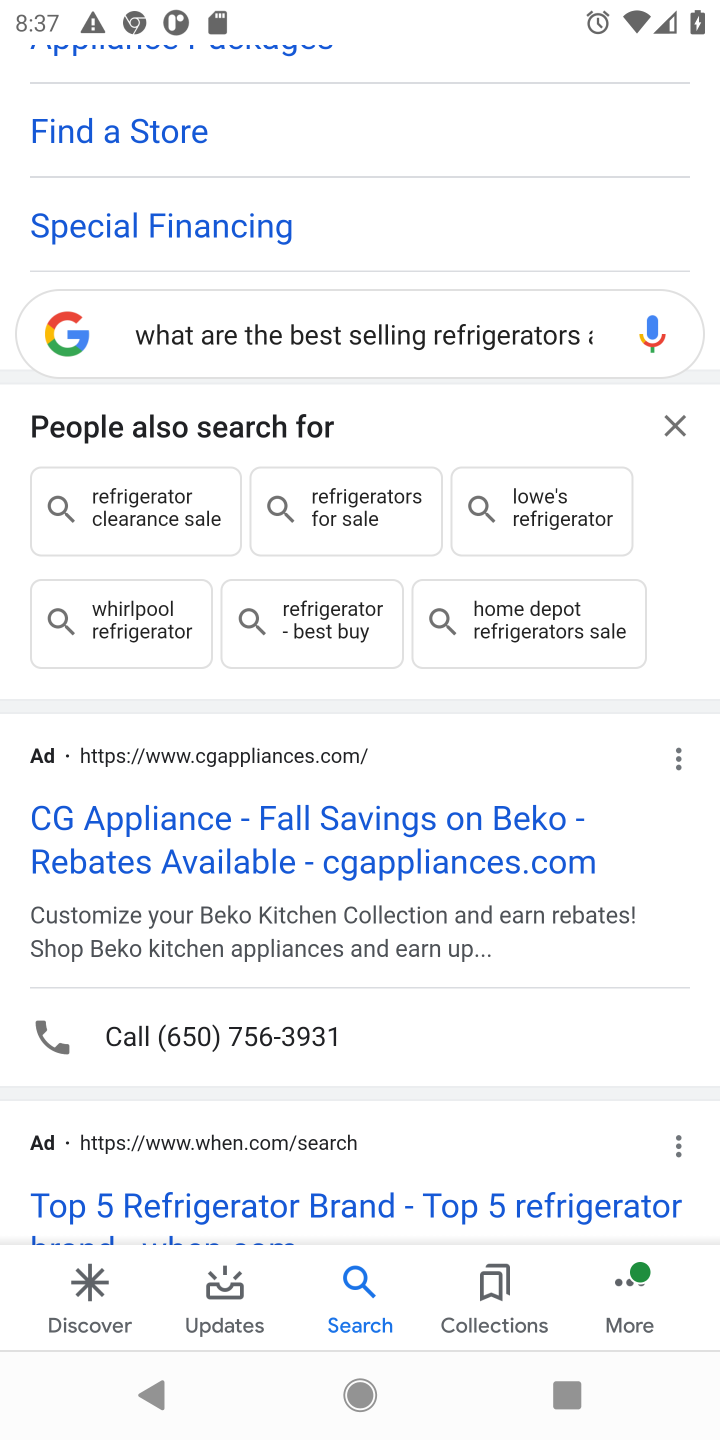
Step 31: drag from (252, 1097) to (354, 1033)
Your task to perform on an android device: What are the best selling refrigerators at Home Depot? Image 32: 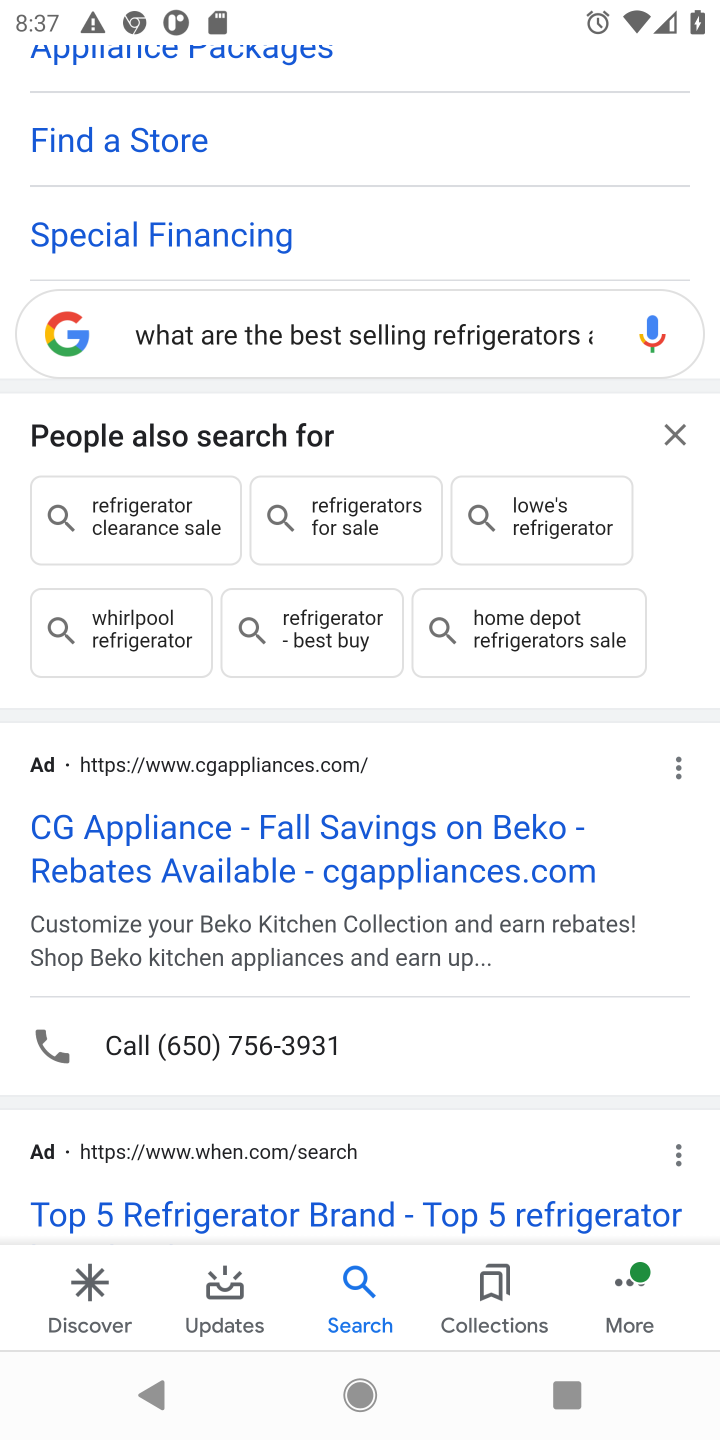
Step 32: drag from (269, 714) to (251, 877)
Your task to perform on an android device: What are the best selling refrigerators at Home Depot? Image 33: 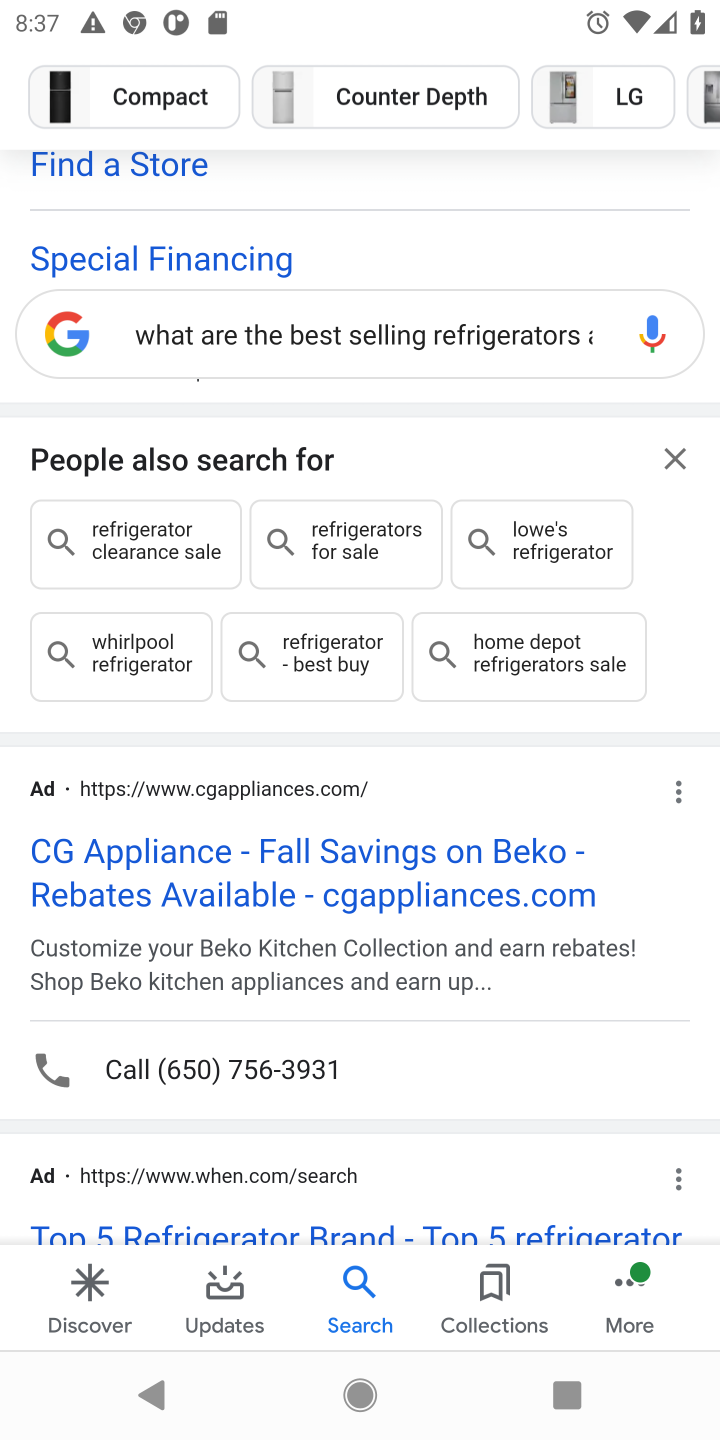
Step 33: drag from (177, 796) to (175, 939)
Your task to perform on an android device: What are the best selling refrigerators at Home Depot? Image 34: 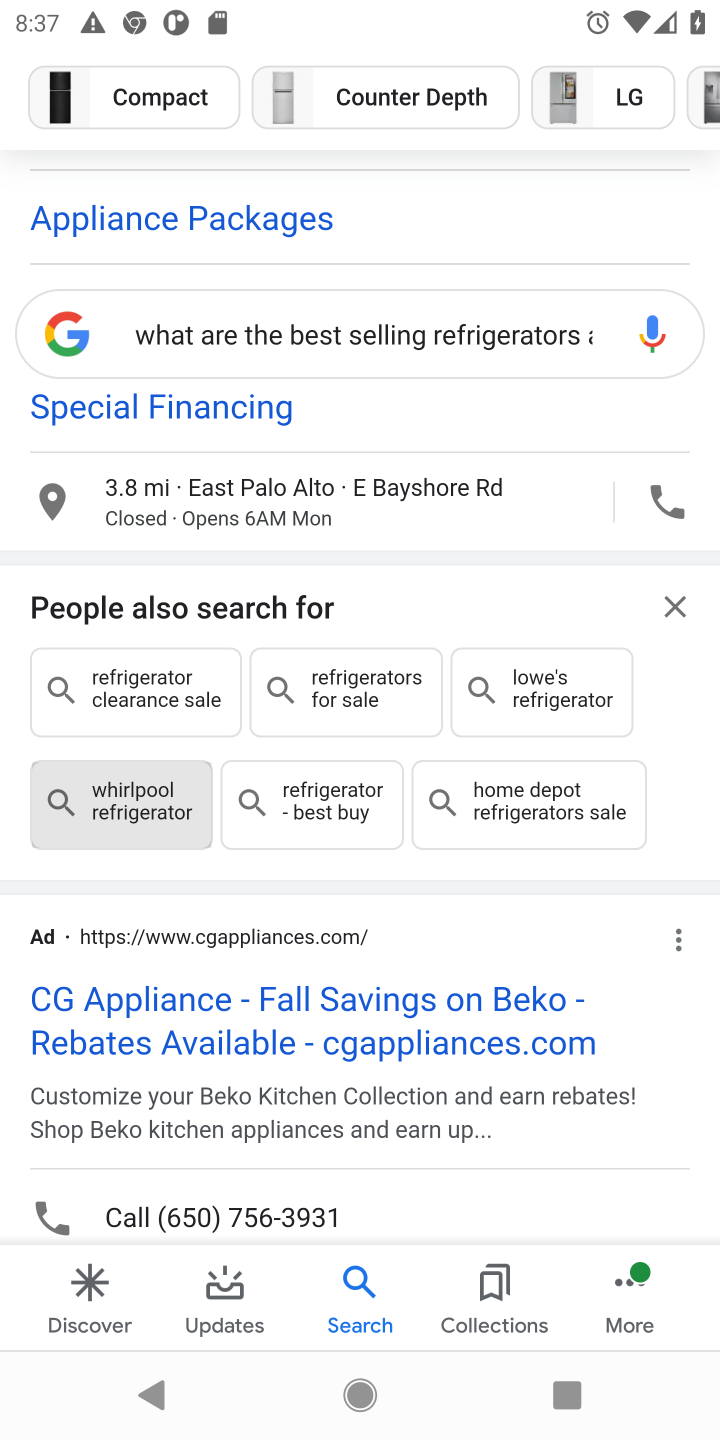
Step 34: click (181, 959)
Your task to perform on an android device: What are the best selling refrigerators at Home Depot? Image 35: 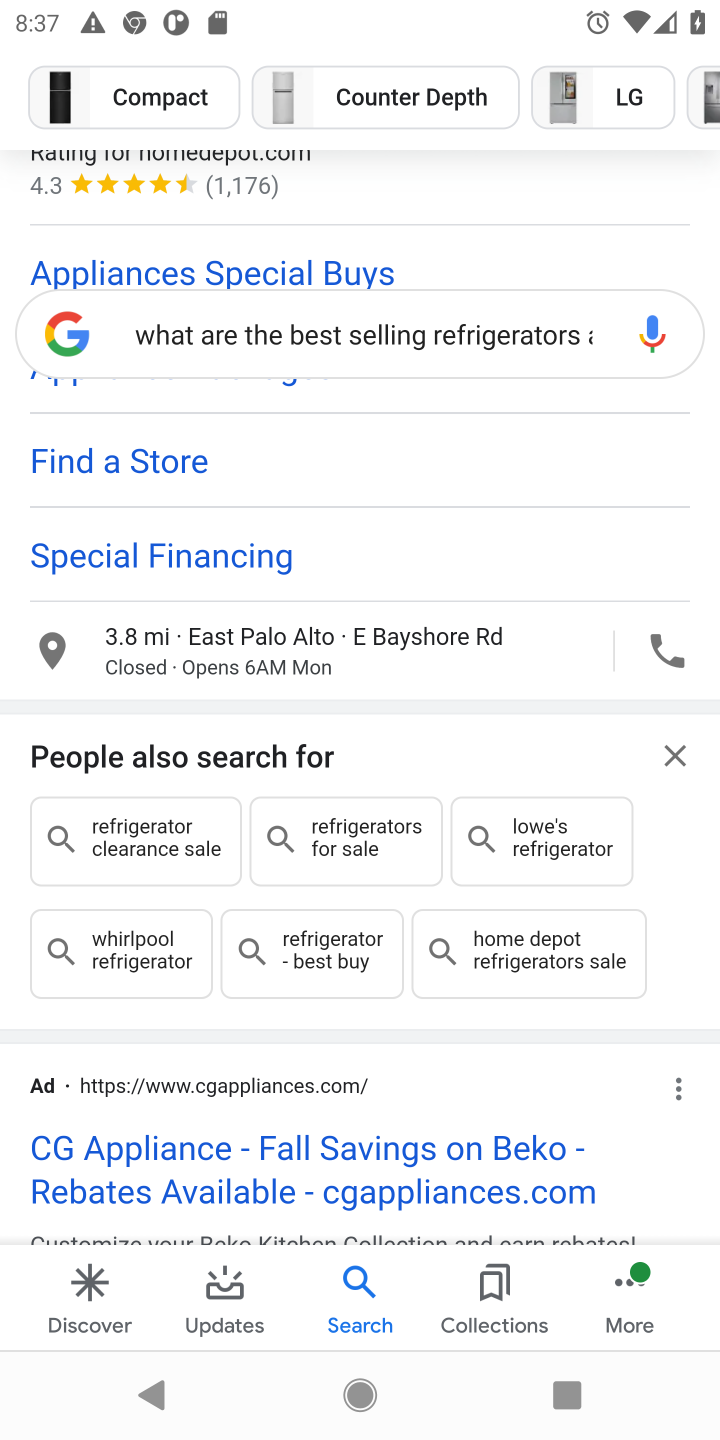
Step 35: drag from (183, 581) to (147, 1162)
Your task to perform on an android device: What are the best selling refrigerators at Home Depot? Image 36: 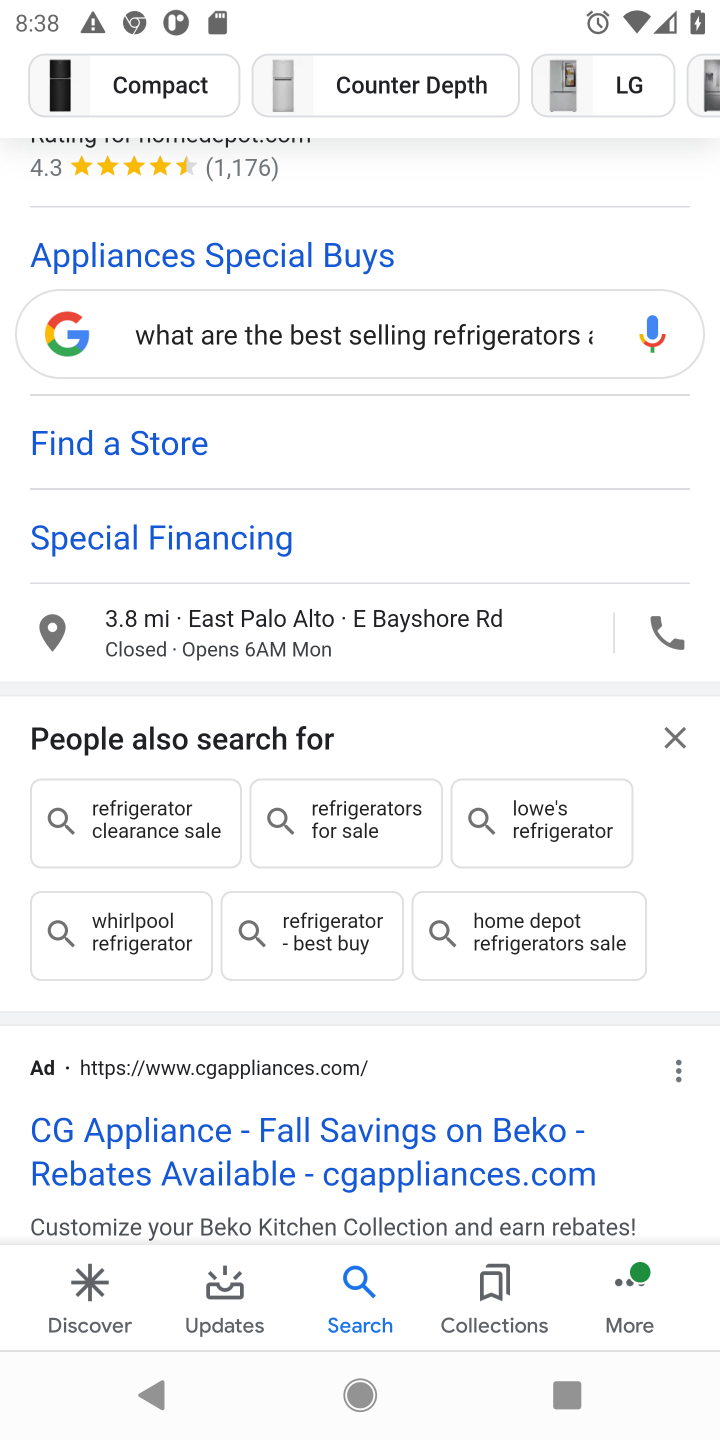
Step 36: drag from (171, 736) to (139, 1209)
Your task to perform on an android device: What are the best selling refrigerators at Home Depot? Image 37: 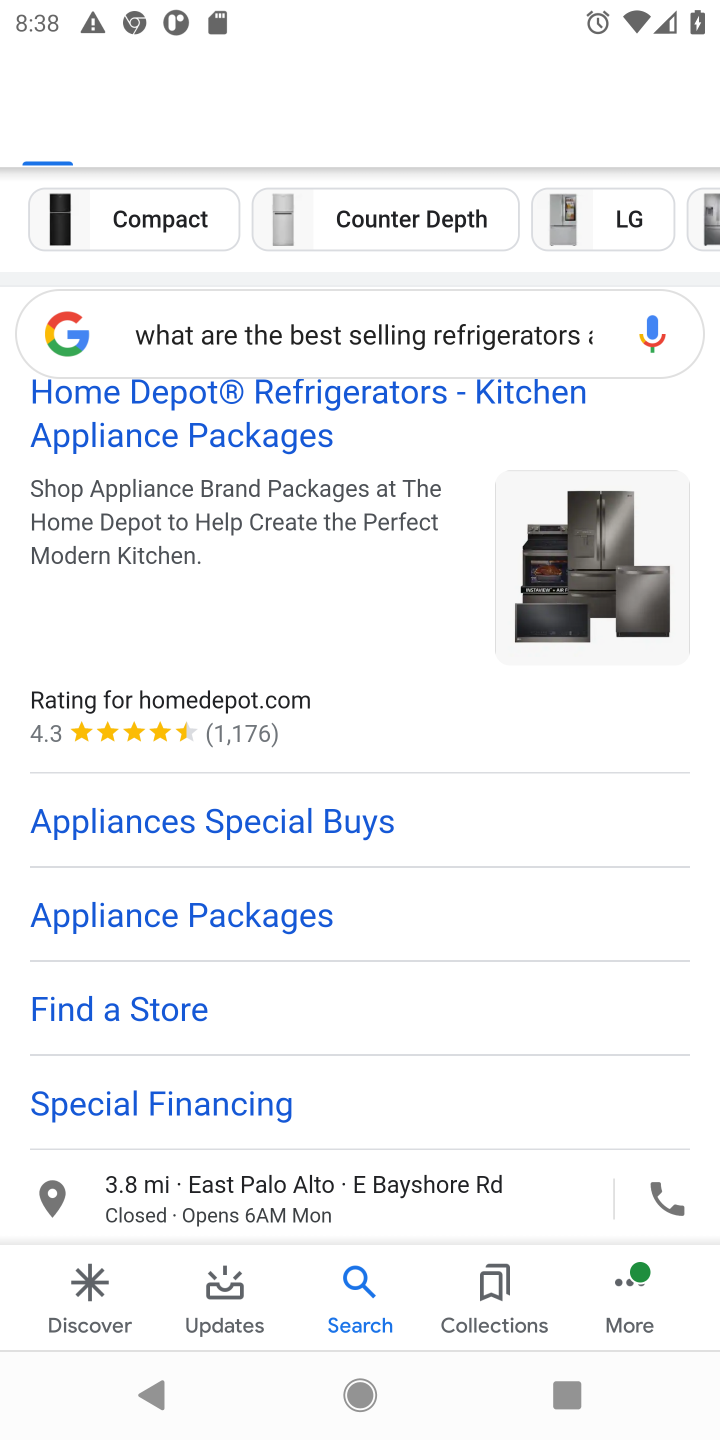
Step 37: click (172, 1009)
Your task to perform on an android device: What are the best selling refrigerators at Home Depot? Image 38: 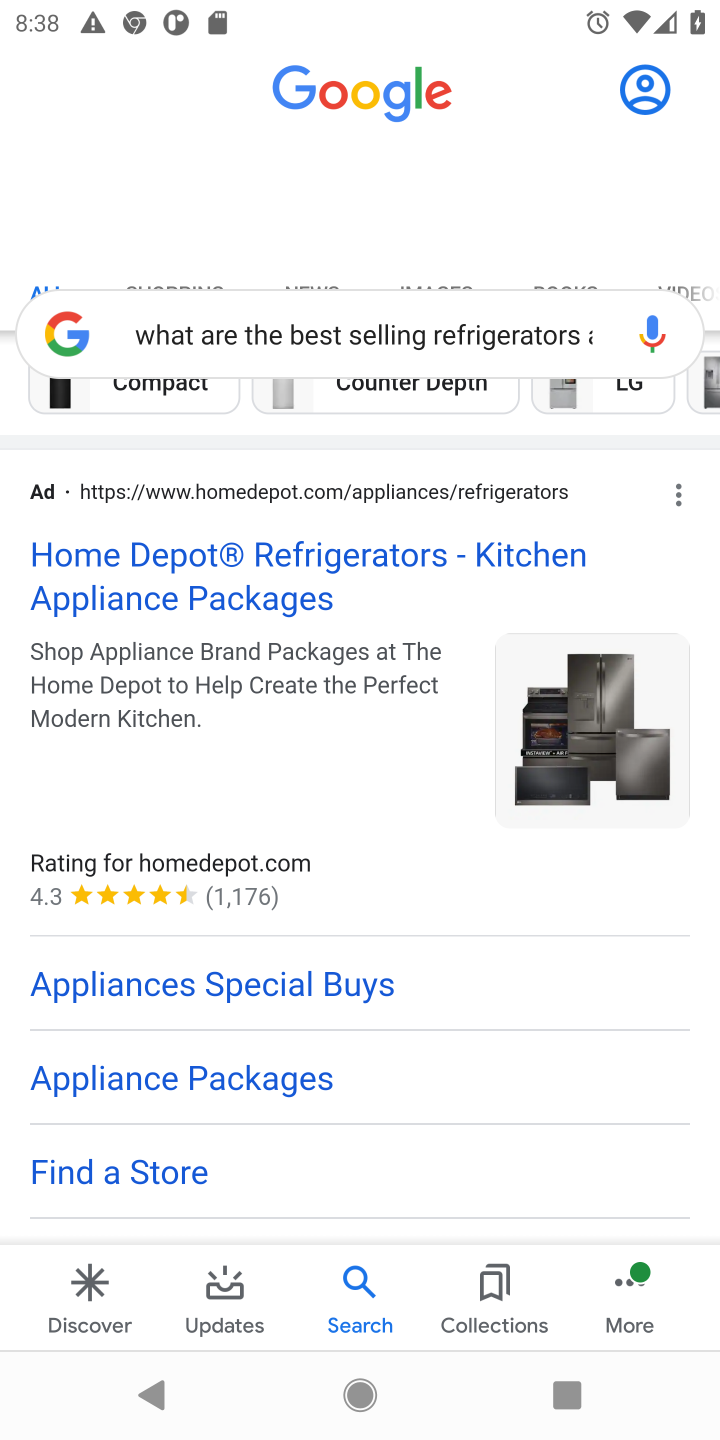
Step 38: click (170, 566)
Your task to perform on an android device: What are the best selling refrigerators at Home Depot? Image 39: 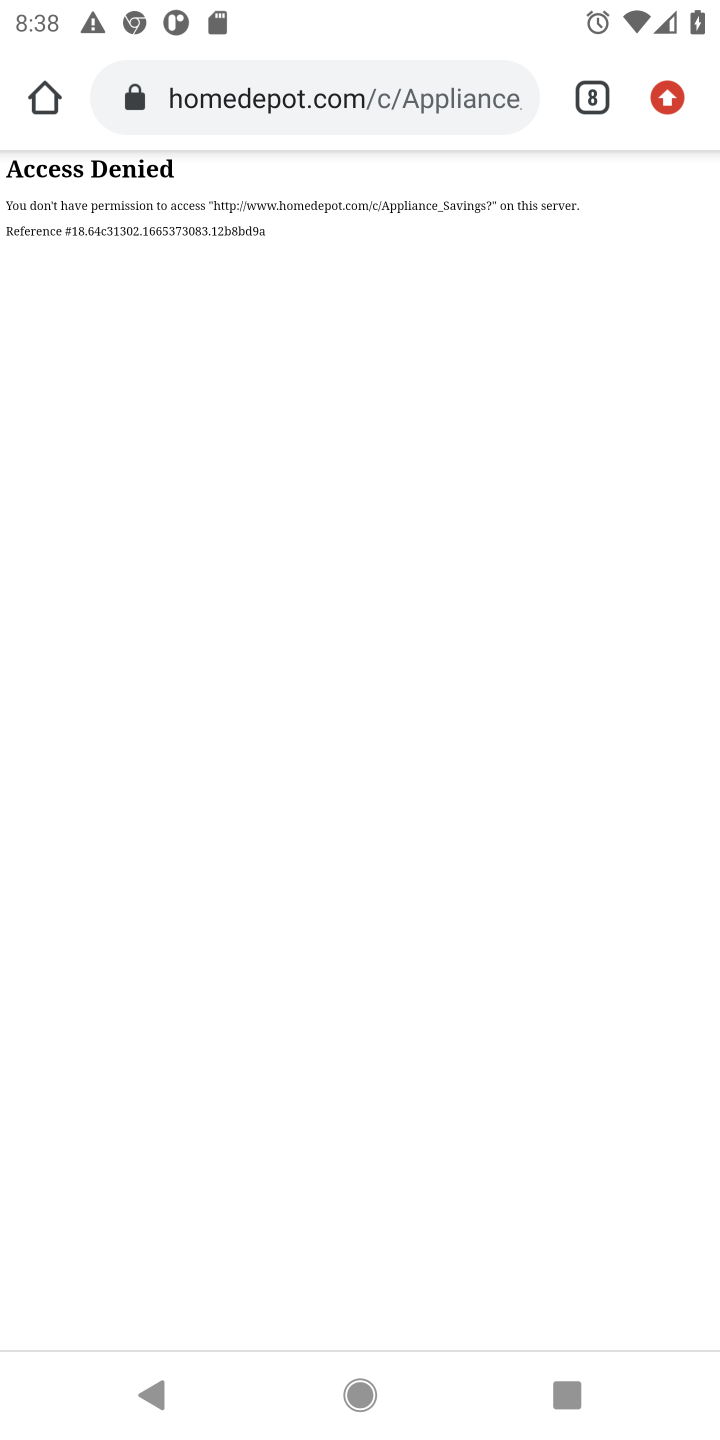
Step 39: task complete